Your task to perform on an android device: Clear the shopping cart on bestbuy.com. Add "razer huntsman" to the cart on bestbuy.com, then select checkout. Image 0: 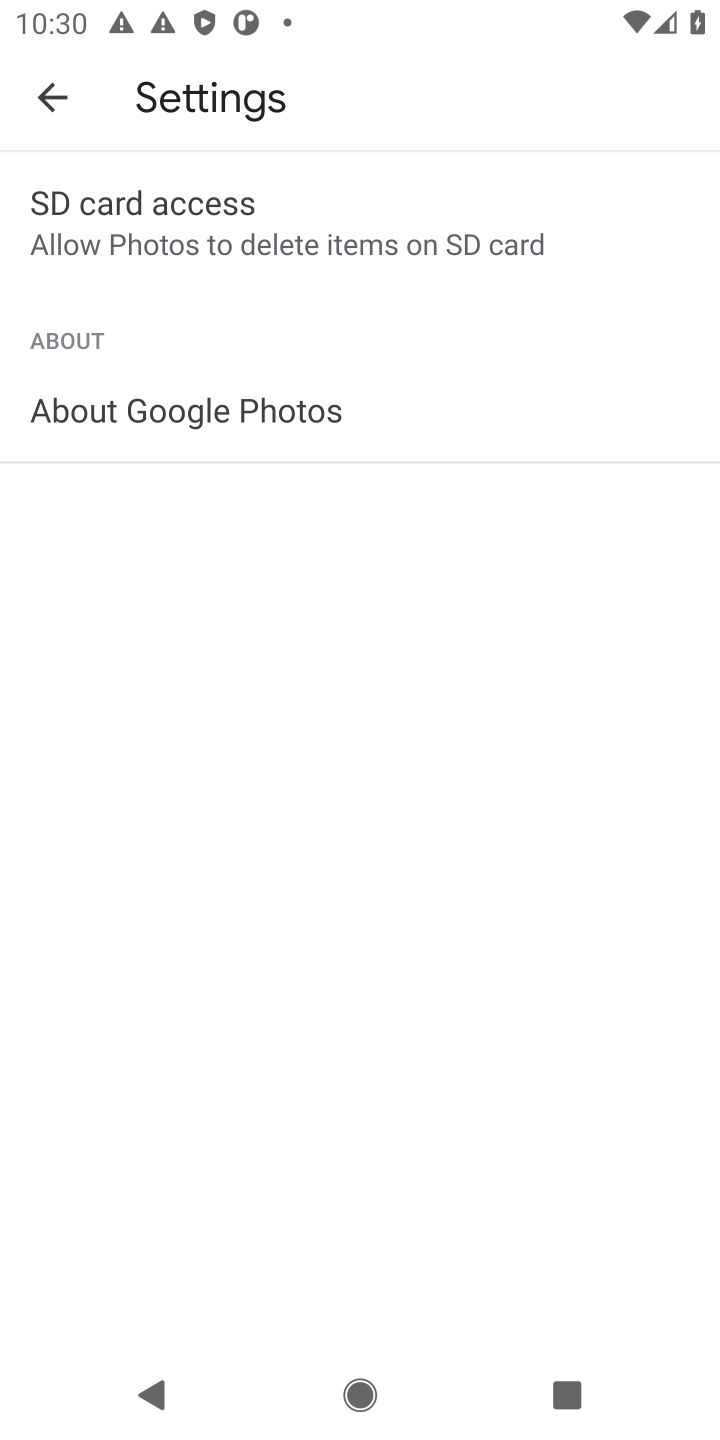
Step 0: press home button
Your task to perform on an android device: Clear the shopping cart on bestbuy.com. Add "razer huntsman" to the cart on bestbuy.com, then select checkout. Image 1: 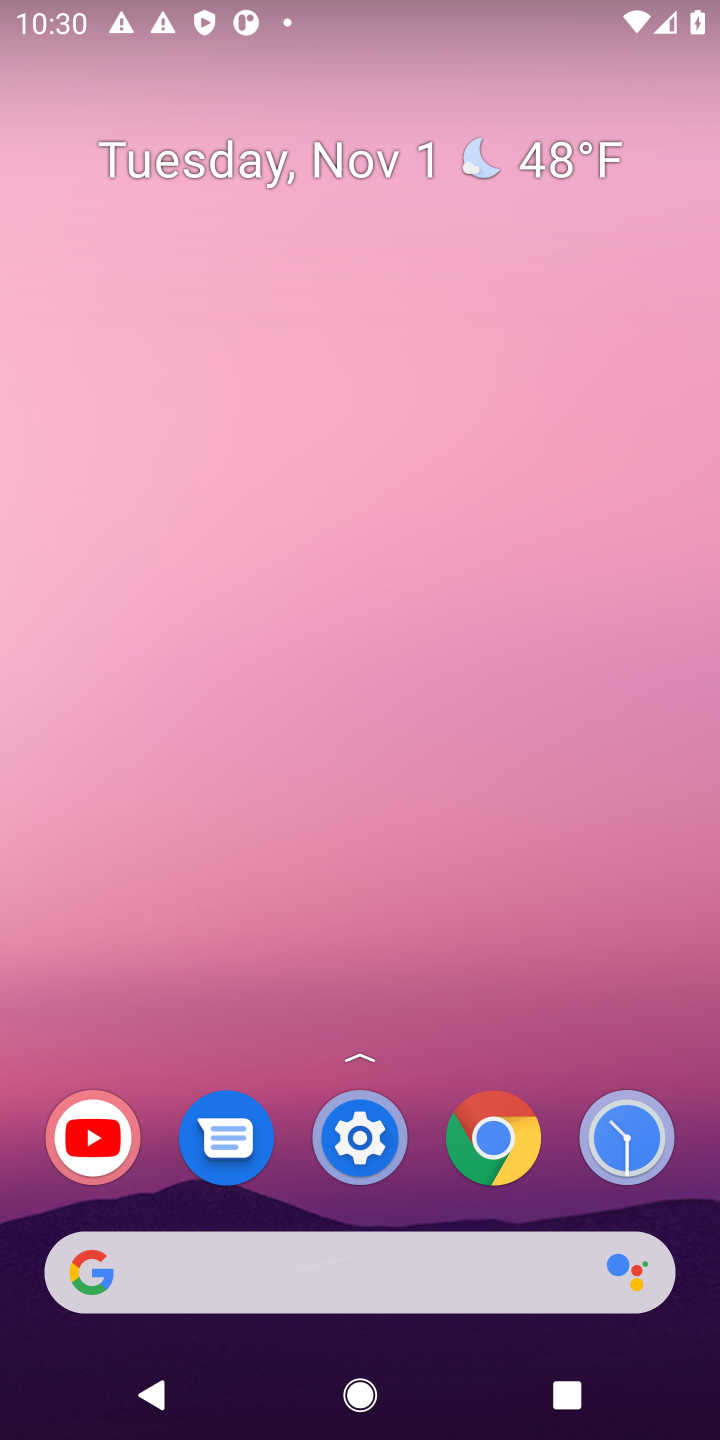
Step 1: click (499, 1144)
Your task to perform on an android device: Clear the shopping cart on bestbuy.com. Add "razer huntsman" to the cart on bestbuy.com, then select checkout. Image 2: 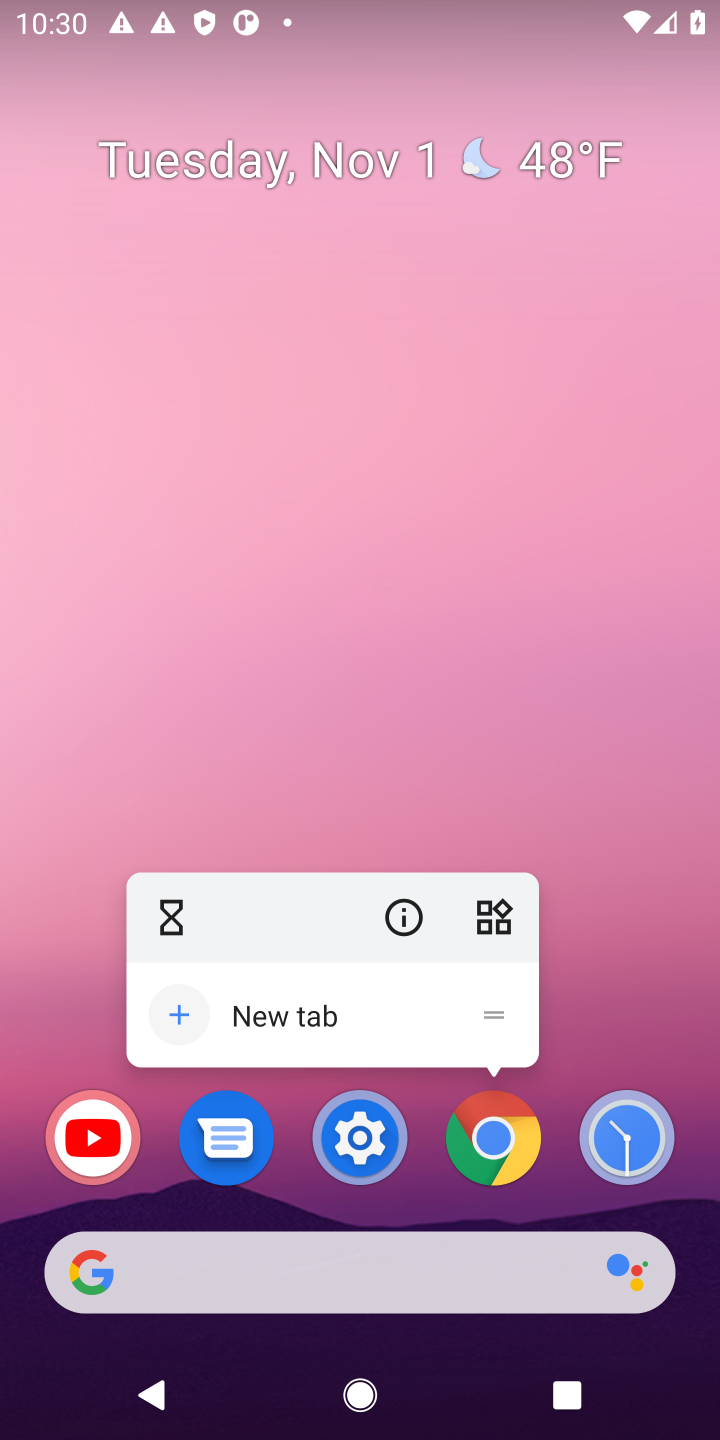
Step 2: click (492, 1154)
Your task to perform on an android device: Clear the shopping cart on bestbuy.com. Add "razer huntsman" to the cart on bestbuy.com, then select checkout. Image 3: 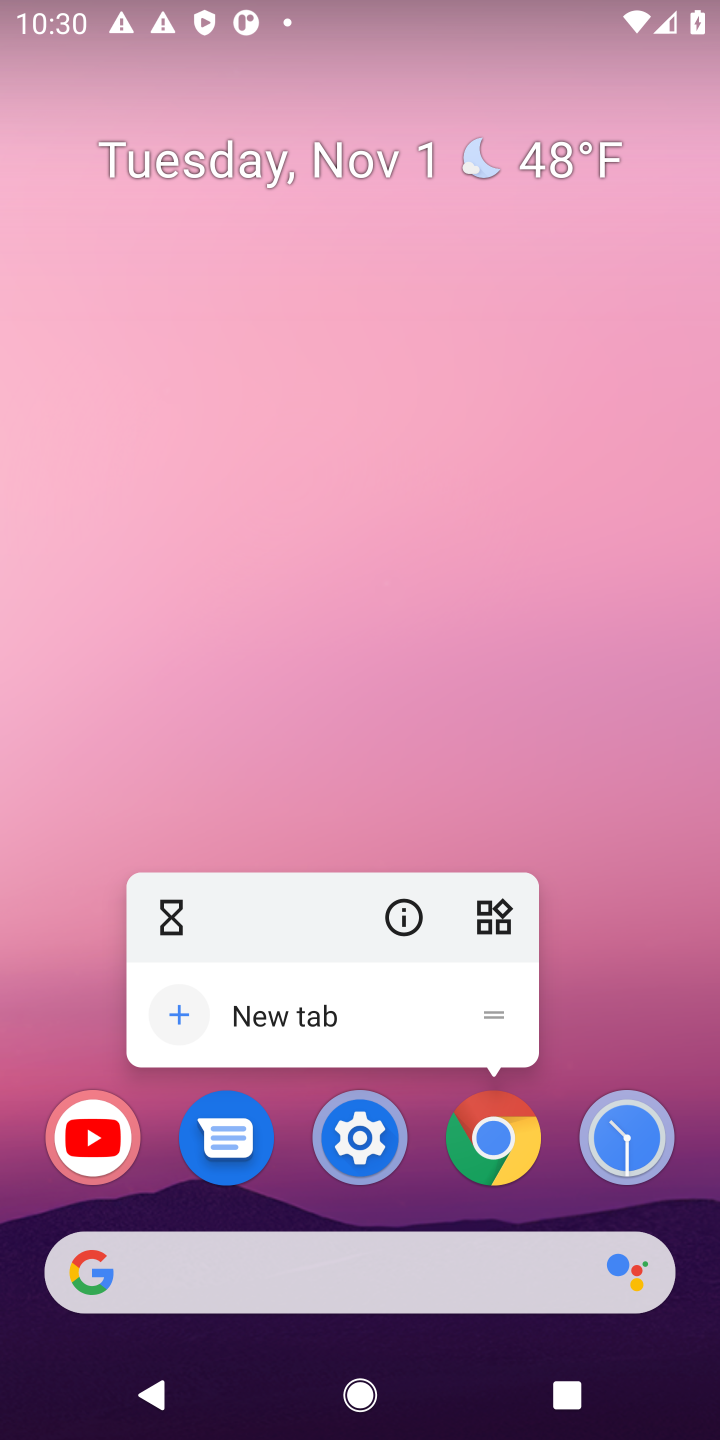
Step 3: click (496, 1179)
Your task to perform on an android device: Clear the shopping cart on bestbuy.com. Add "razer huntsman" to the cart on bestbuy.com, then select checkout. Image 4: 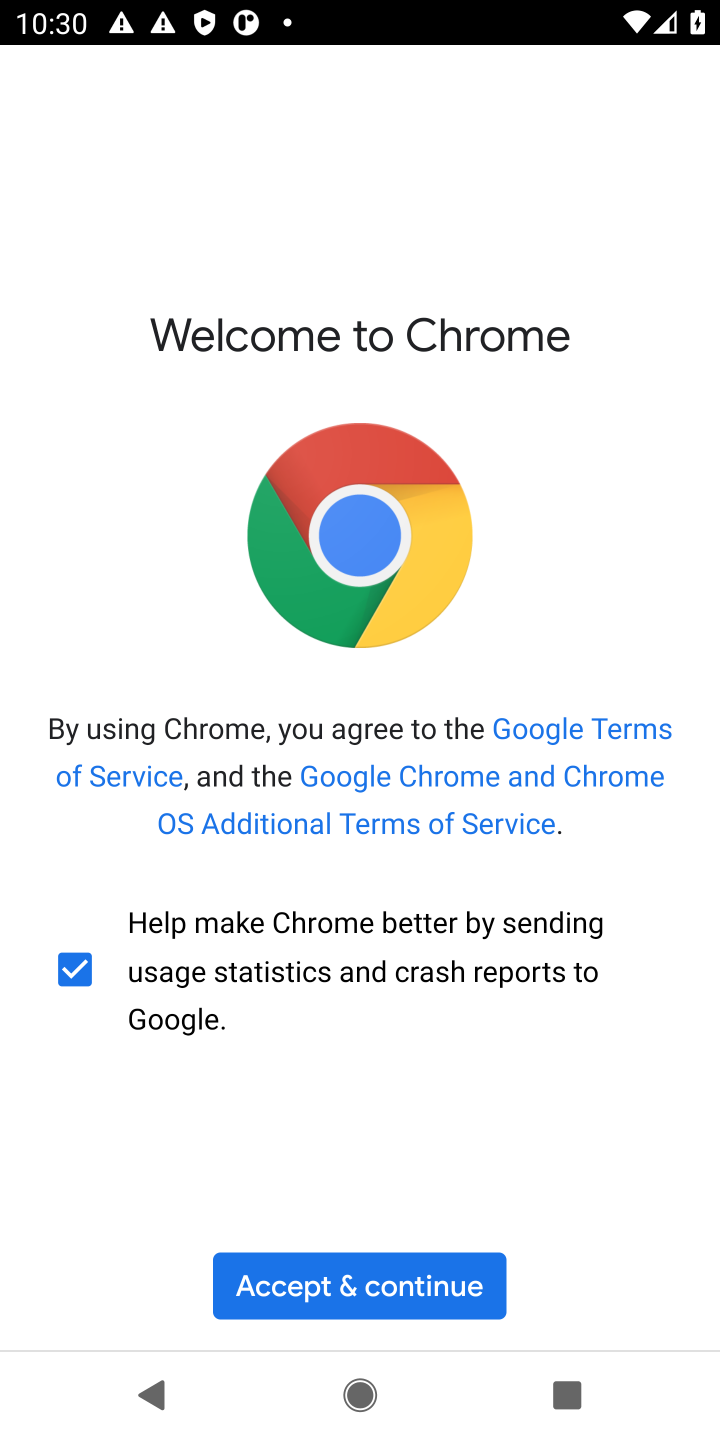
Step 4: click (450, 1274)
Your task to perform on an android device: Clear the shopping cart on bestbuy.com. Add "razer huntsman" to the cart on bestbuy.com, then select checkout. Image 5: 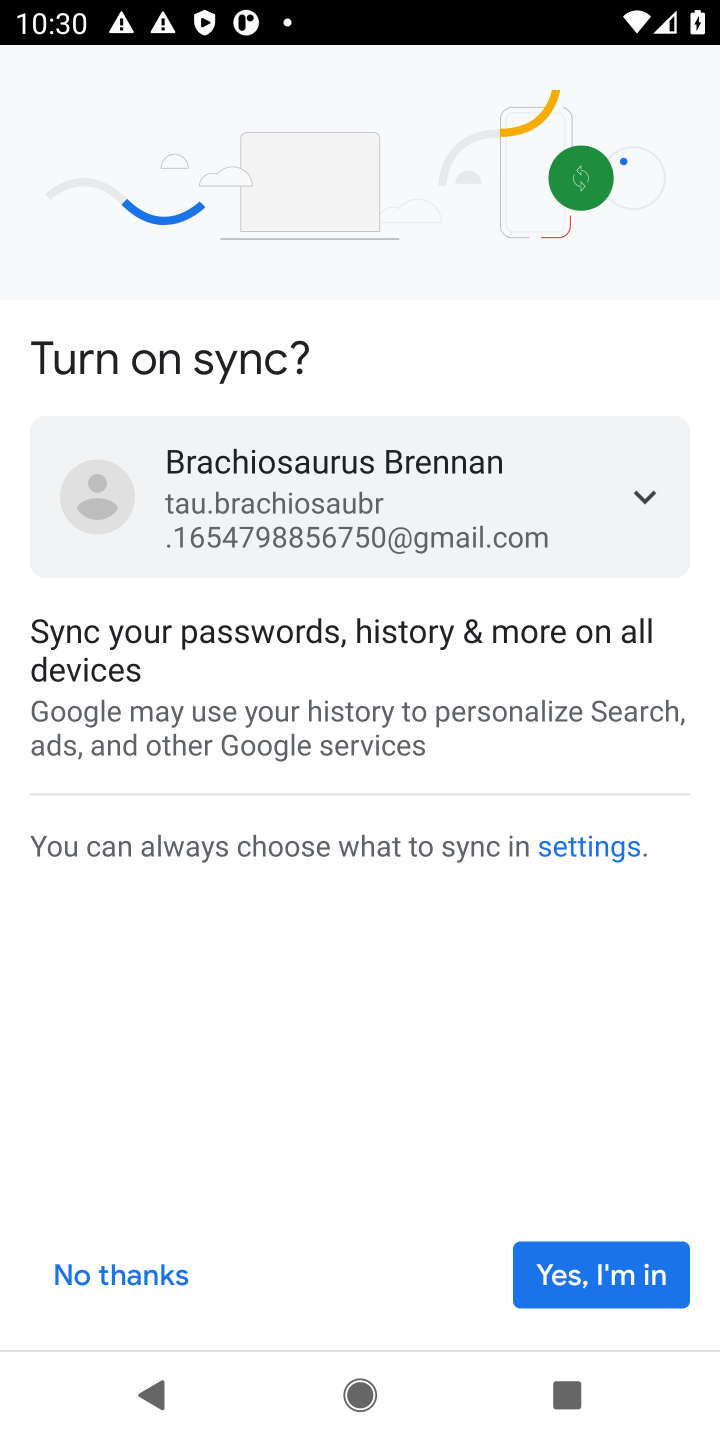
Step 5: click (525, 1256)
Your task to perform on an android device: Clear the shopping cart on bestbuy.com. Add "razer huntsman" to the cart on bestbuy.com, then select checkout. Image 6: 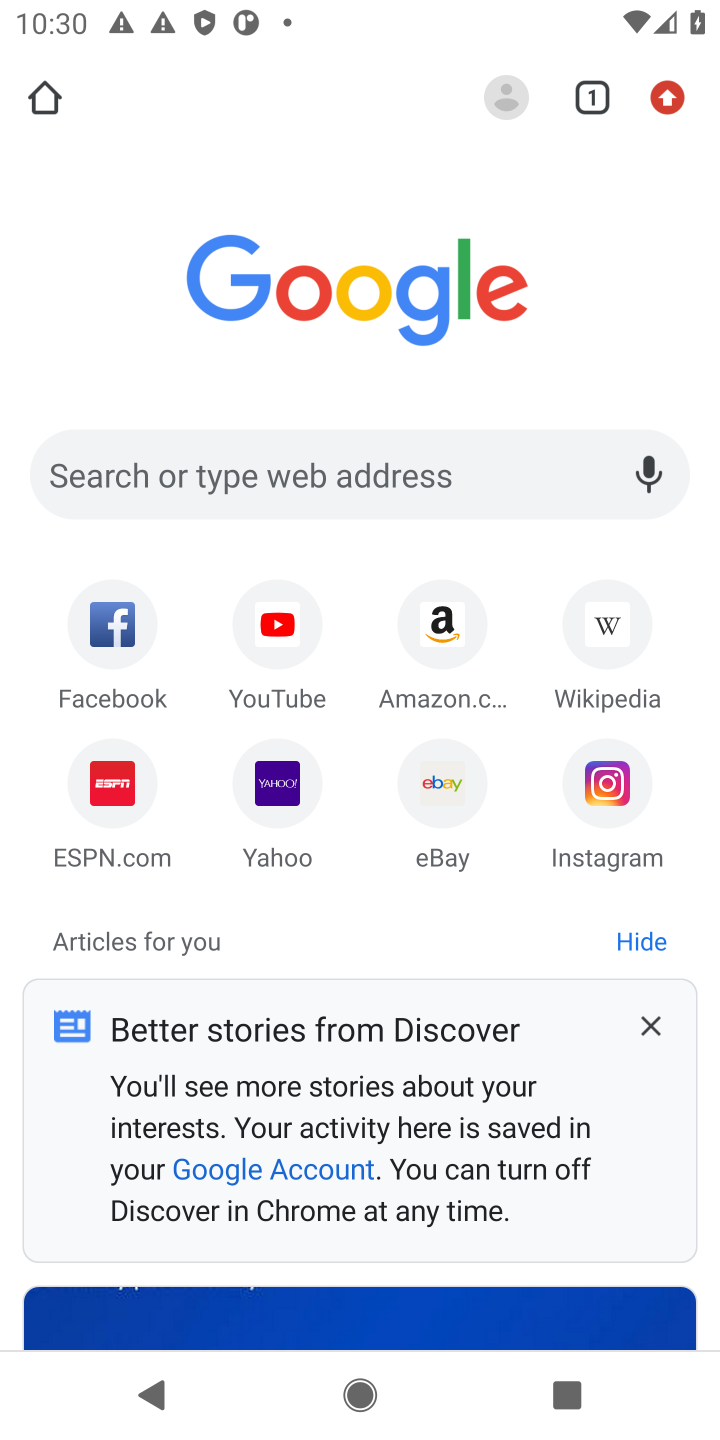
Step 6: click (280, 469)
Your task to perform on an android device: Clear the shopping cart on bestbuy.com. Add "razer huntsman" to the cart on bestbuy.com, then select checkout. Image 7: 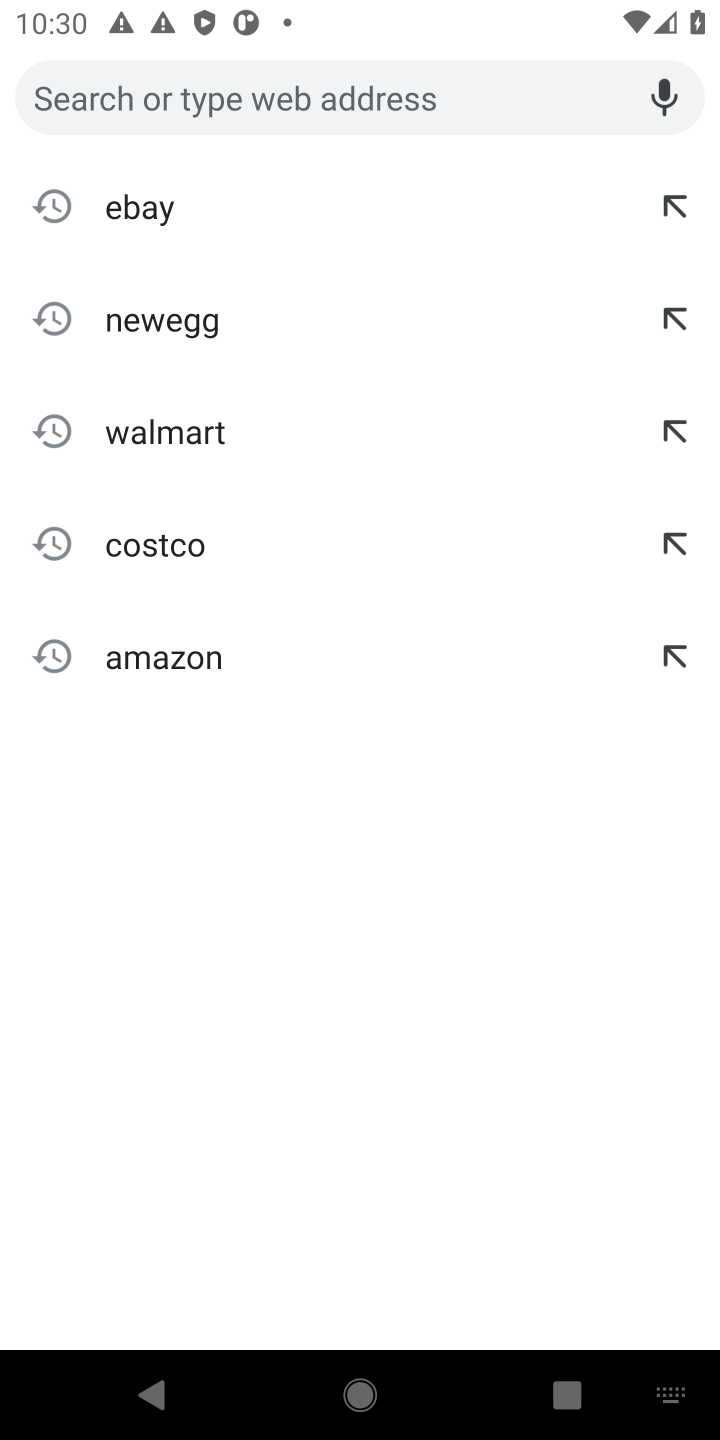
Step 7: type " bestbuy.com"
Your task to perform on an android device: Clear the shopping cart on bestbuy.com. Add "razer huntsman" to the cart on bestbuy.com, then select checkout. Image 8: 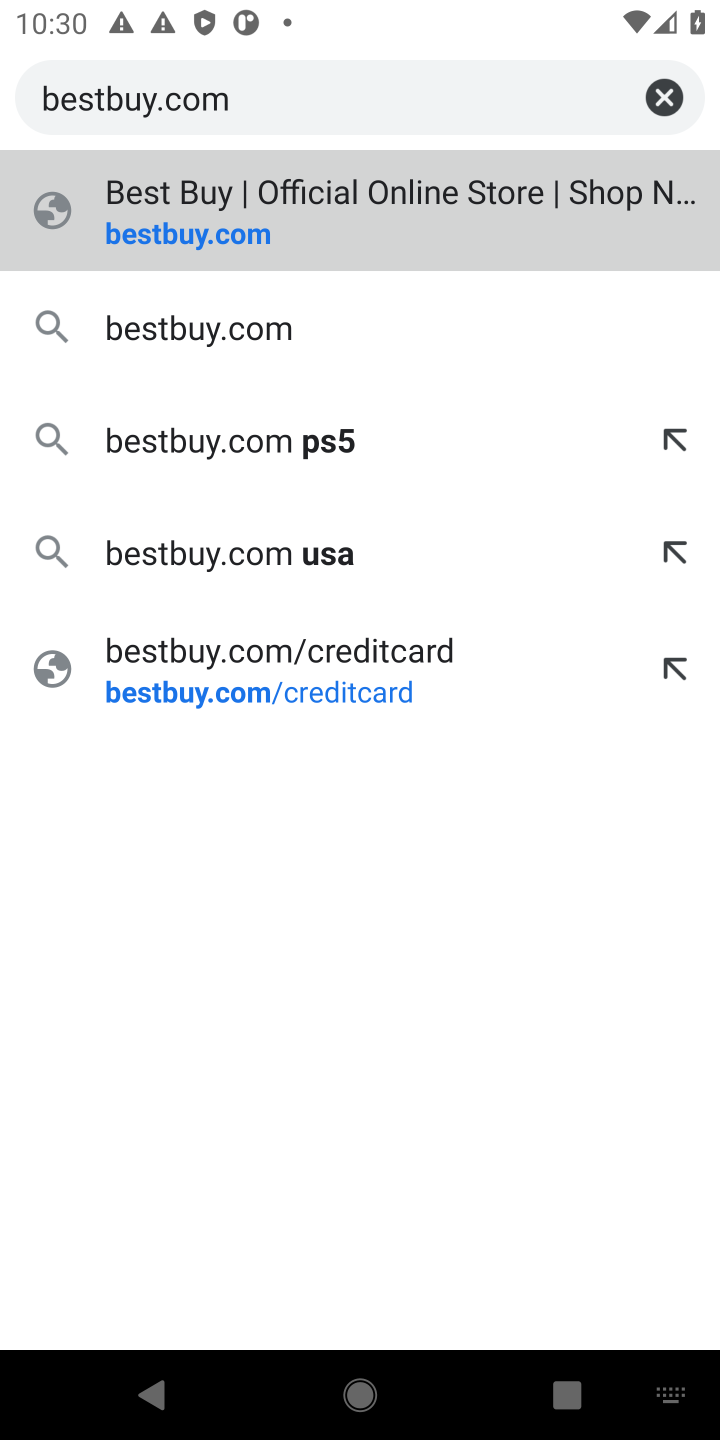
Step 8: type ""
Your task to perform on an android device: Clear the shopping cart on bestbuy.com. Add "razer huntsman" to the cart on bestbuy.com, then select checkout. Image 9: 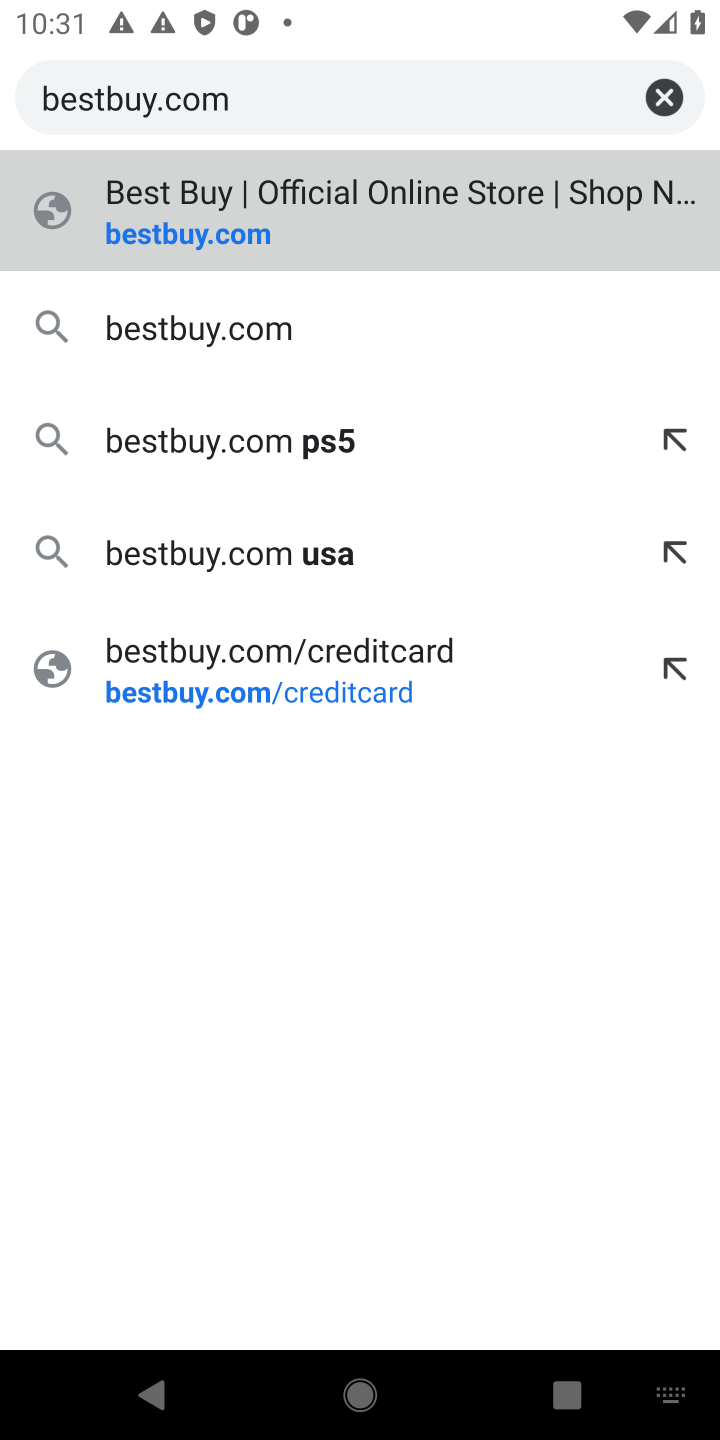
Step 9: click (269, 204)
Your task to perform on an android device: Clear the shopping cart on bestbuy.com. Add "razer huntsman" to the cart on bestbuy.com, then select checkout. Image 10: 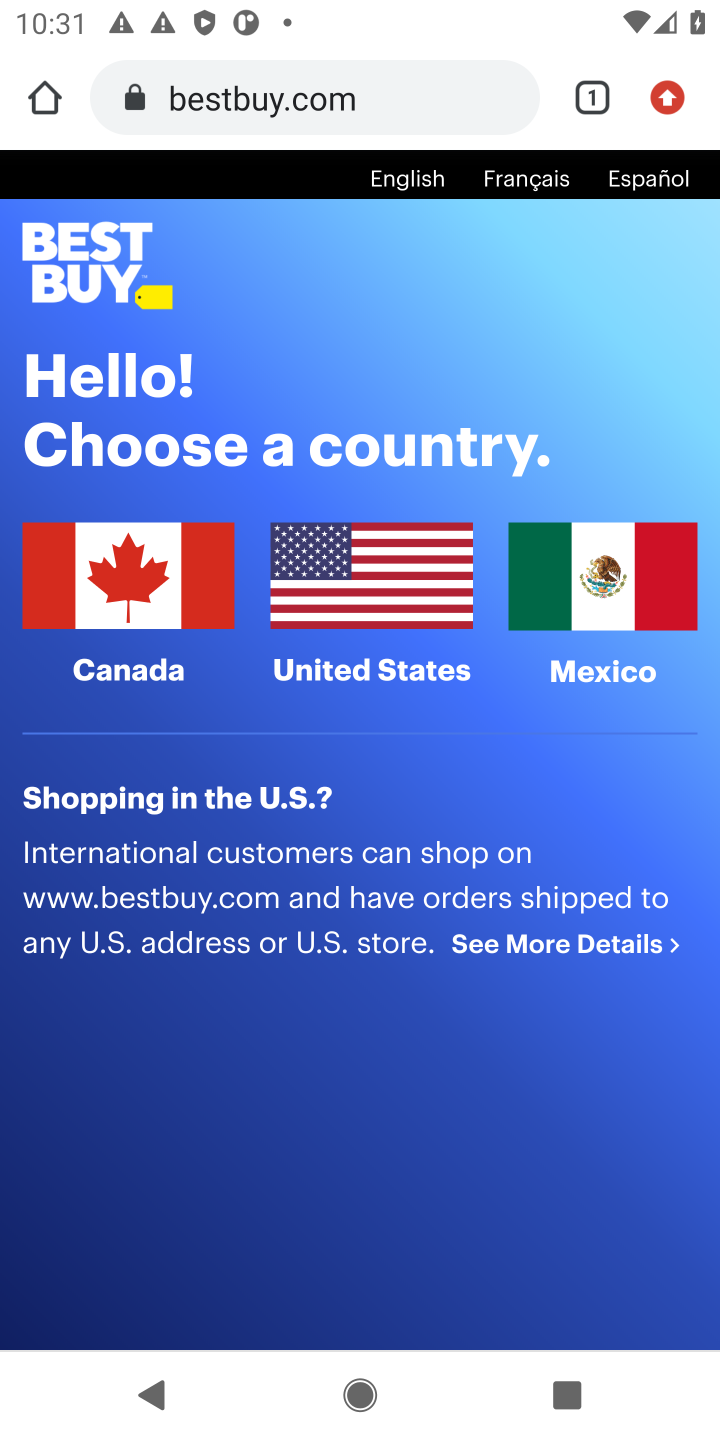
Step 10: click (480, 614)
Your task to perform on an android device: Clear the shopping cart on bestbuy.com. Add "razer huntsman" to the cart on bestbuy.com, then select checkout. Image 11: 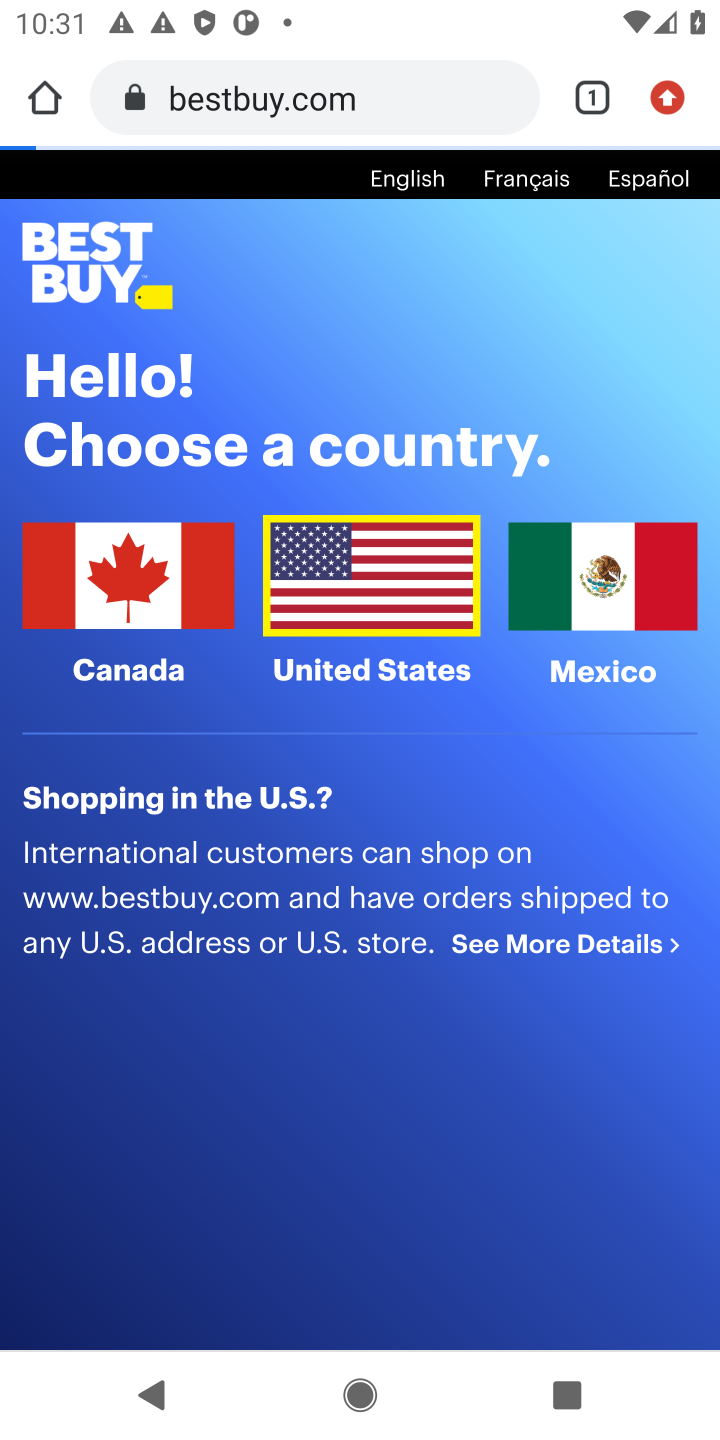
Step 11: click (453, 614)
Your task to perform on an android device: Clear the shopping cart on bestbuy.com. Add "razer huntsman" to the cart on bestbuy.com, then select checkout. Image 12: 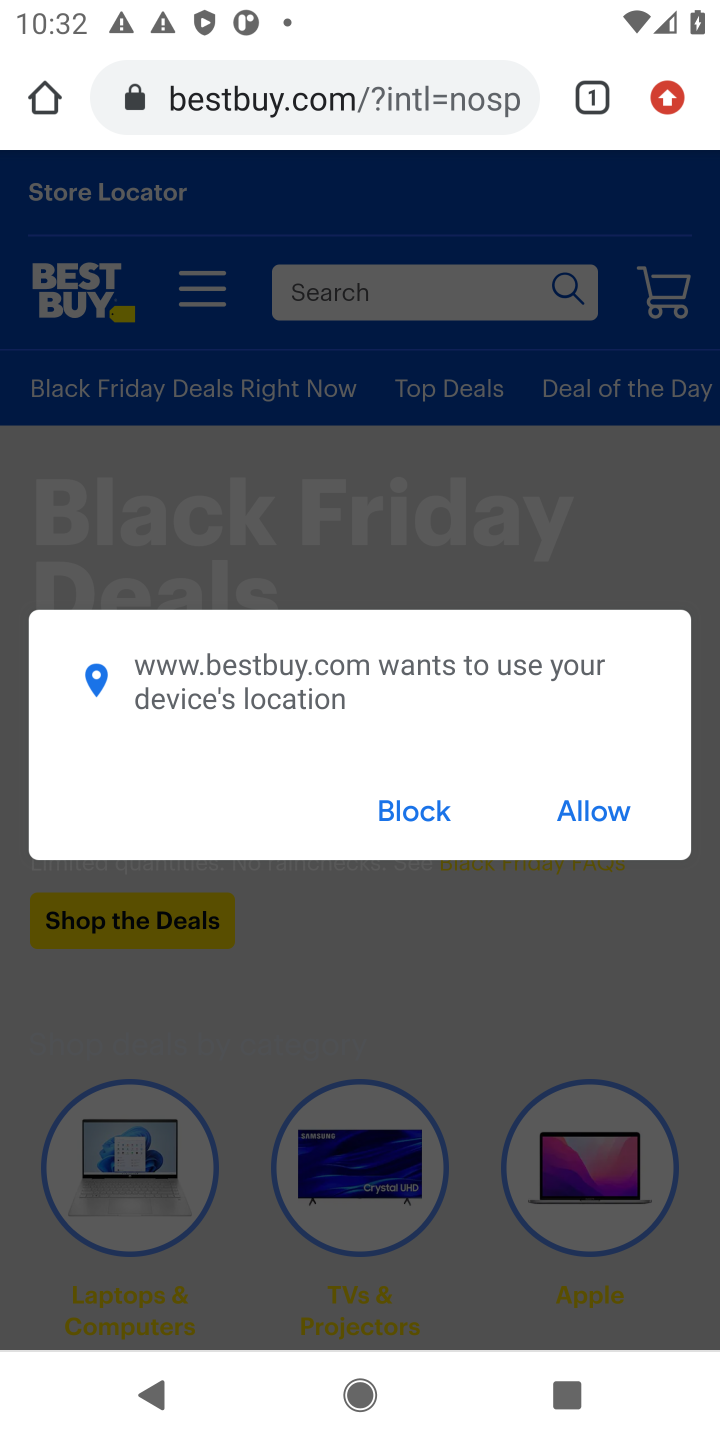
Step 12: click (573, 802)
Your task to perform on an android device: Clear the shopping cart on bestbuy.com. Add "razer huntsman" to the cart on bestbuy.com, then select checkout. Image 13: 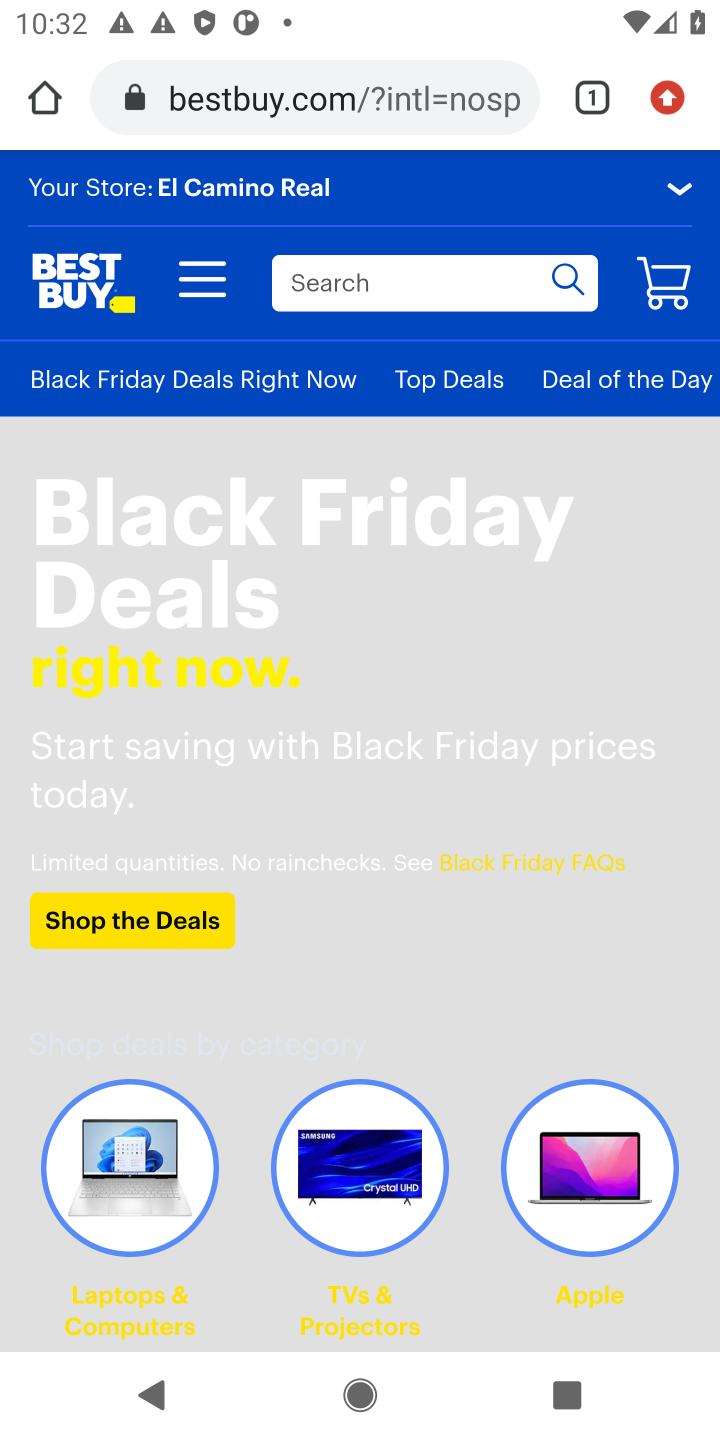
Step 13: click (320, 260)
Your task to perform on an android device: Clear the shopping cart on bestbuy.com. Add "razer huntsman" to the cart on bestbuy.com, then select checkout. Image 14: 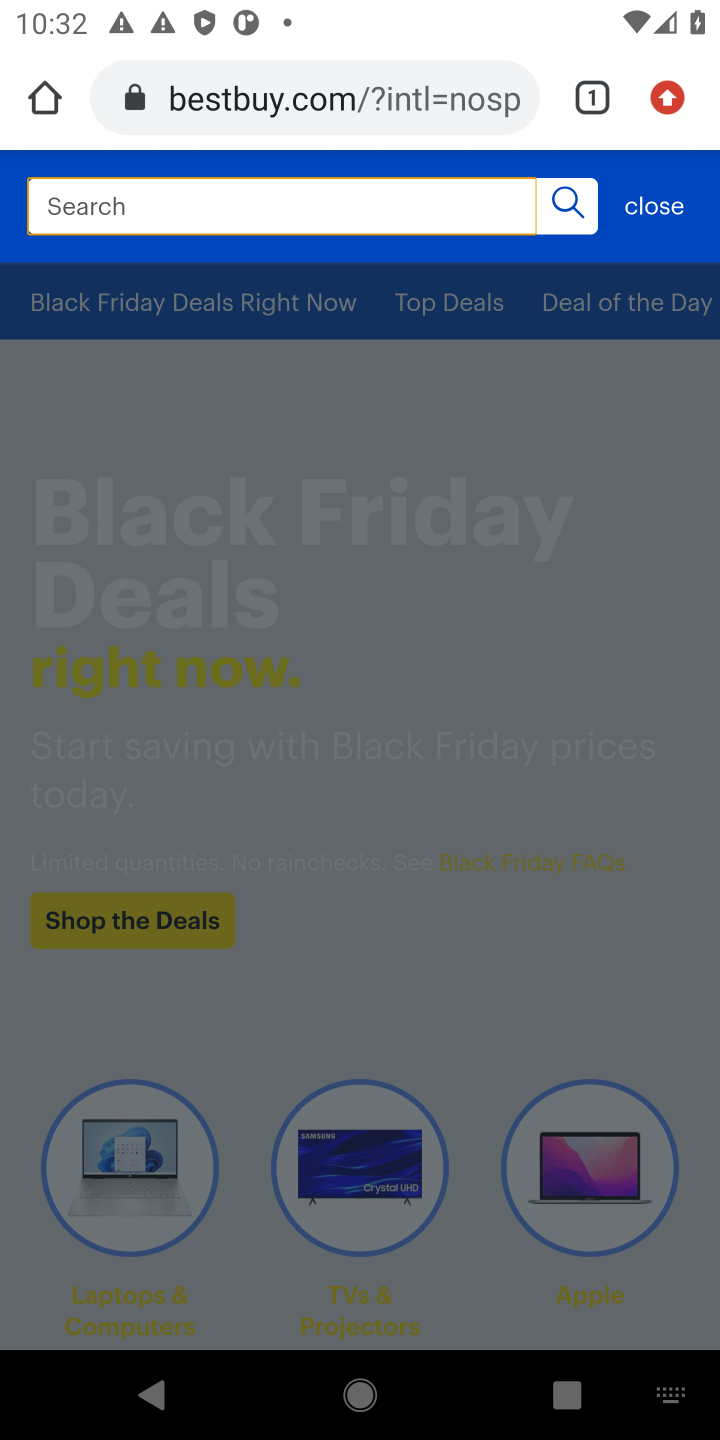
Step 14: type "razer huntsman"
Your task to perform on an android device: Clear the shopping cart on bestbuy.com. Add "razer huntsman" to the cart on bestbuy.com, then select checkout. Image 15: 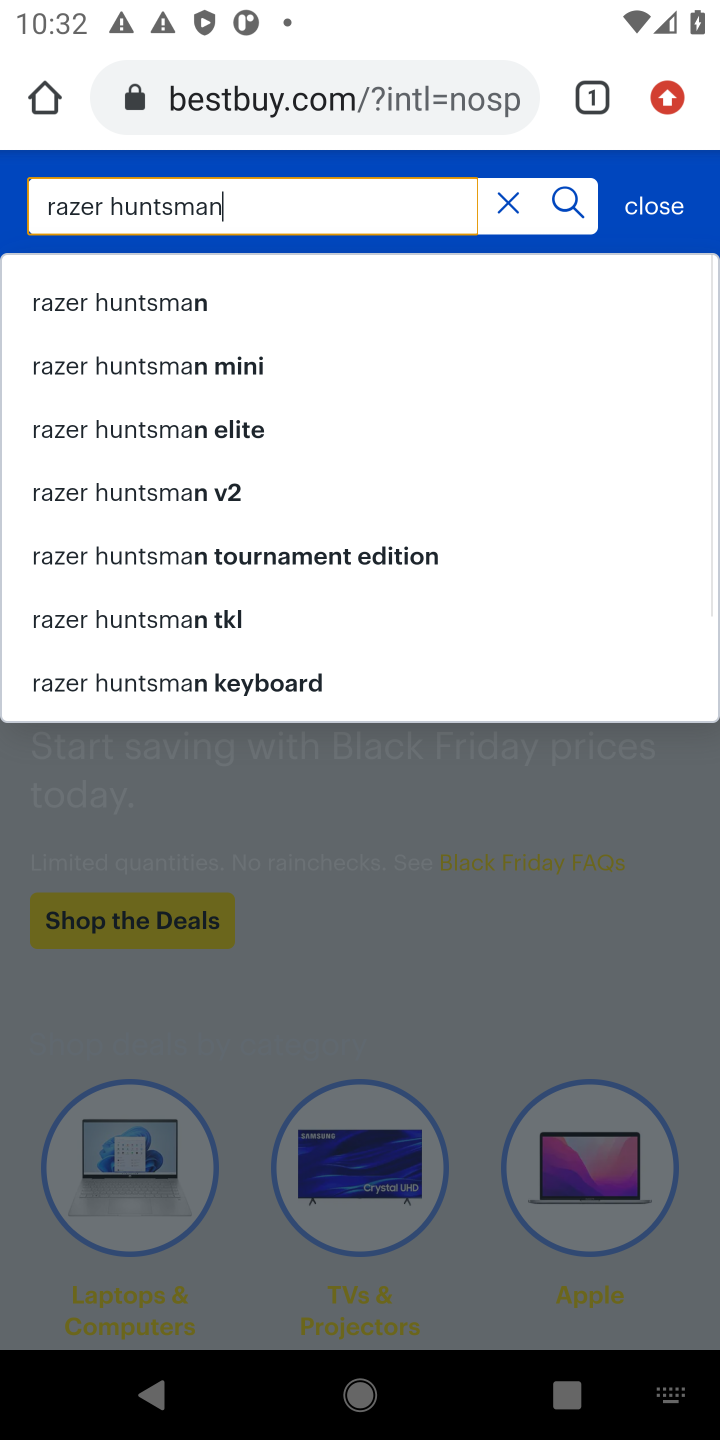
Step 15: type ""
Your task to perform on an android device: Clear the shopping cart on bestbuy.com. Add "razer huntsman" to the cart on bestbuy.com, then select checkout. Image 16: 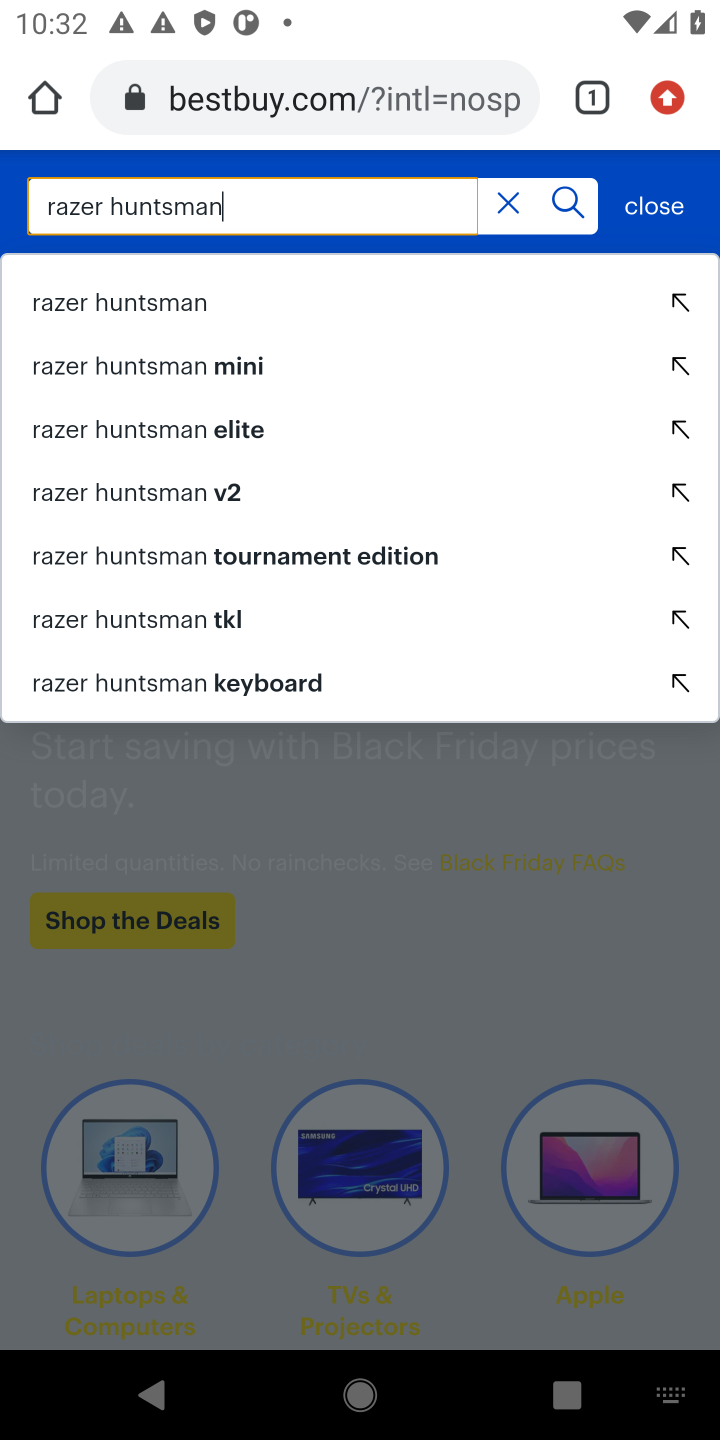
Step 16: click (169, 304)
Your task to perform on an android device: Clear the shopping cart on bestbuy.com. Add "razer huntsman" to the cart on bestbuy.com, then select checkout. Image 17: 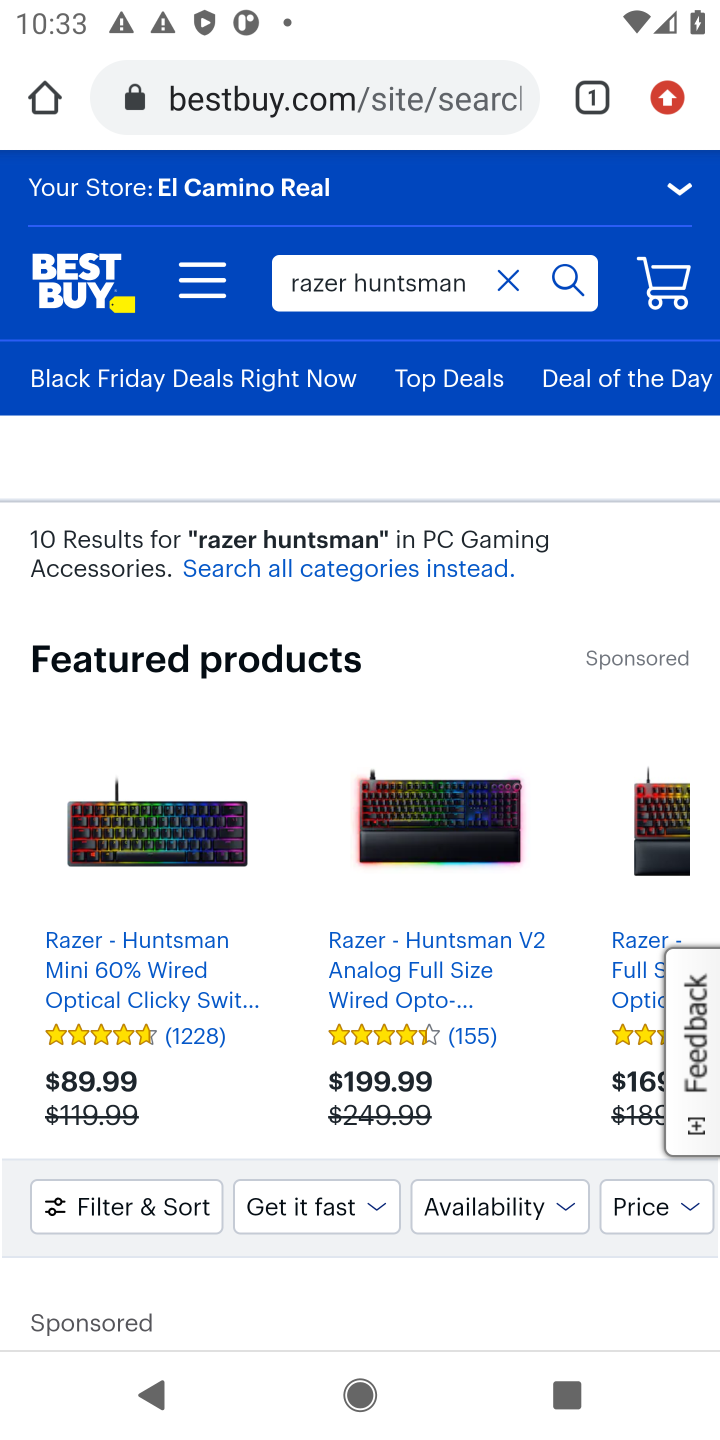
Step 17: click (184, 874)
Your task to perform on an android device: Clear the shopping cart on bestbuy.com. Add "razer huntsman" to the cart on bestbuy.com, then select checkout. Image 18: 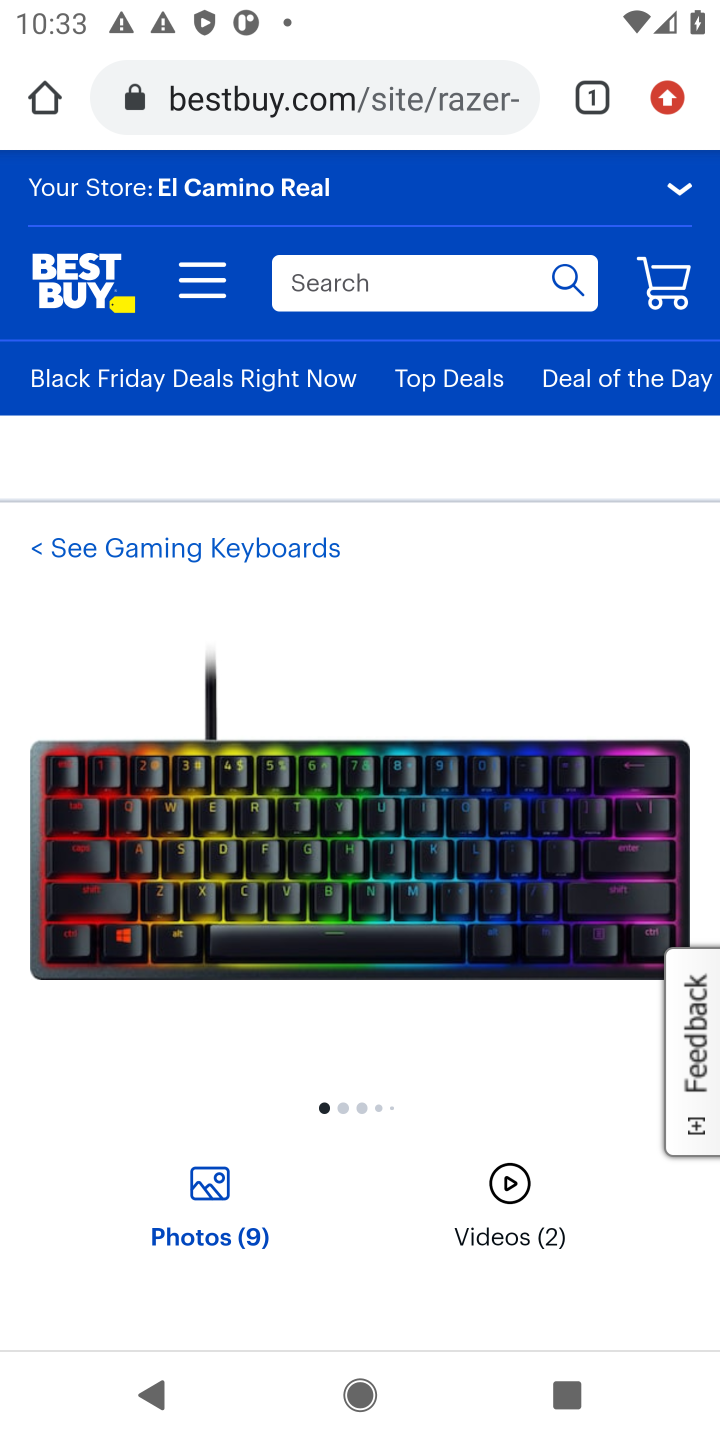
Step 18: drag from (233, 1073) to (349, 589)
Your task to perform on an android device: Clear the shopping cart on bestbuy.com. Add "razer huntsman" to the cart on bestbuy.com, then select checkout. Image 19: 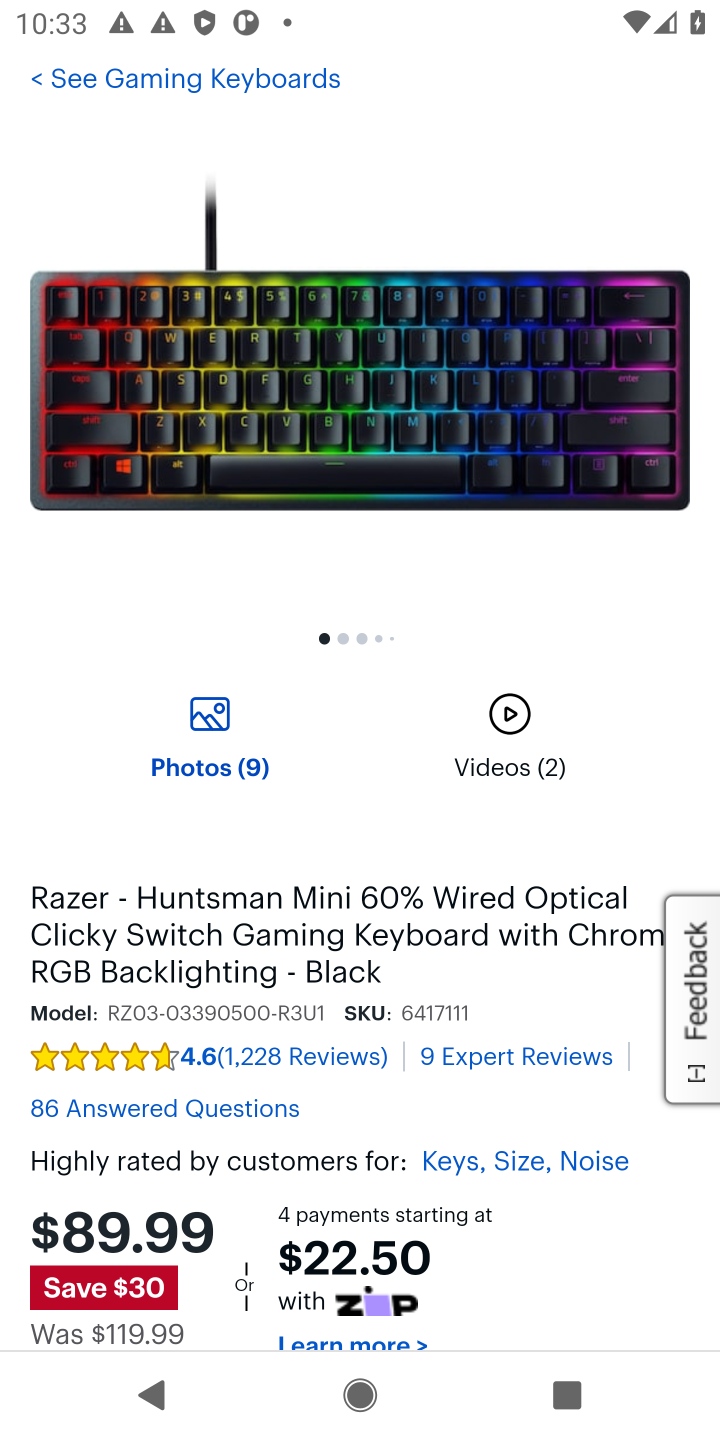
Step 19: drag from (325, 561) to (351, 437)
Your task to perform on an android device: Clear the shopping cart on bestbuy.com. Add "razer huntsman" to the cart on bestbuy.com, then select checkout. Image 20: 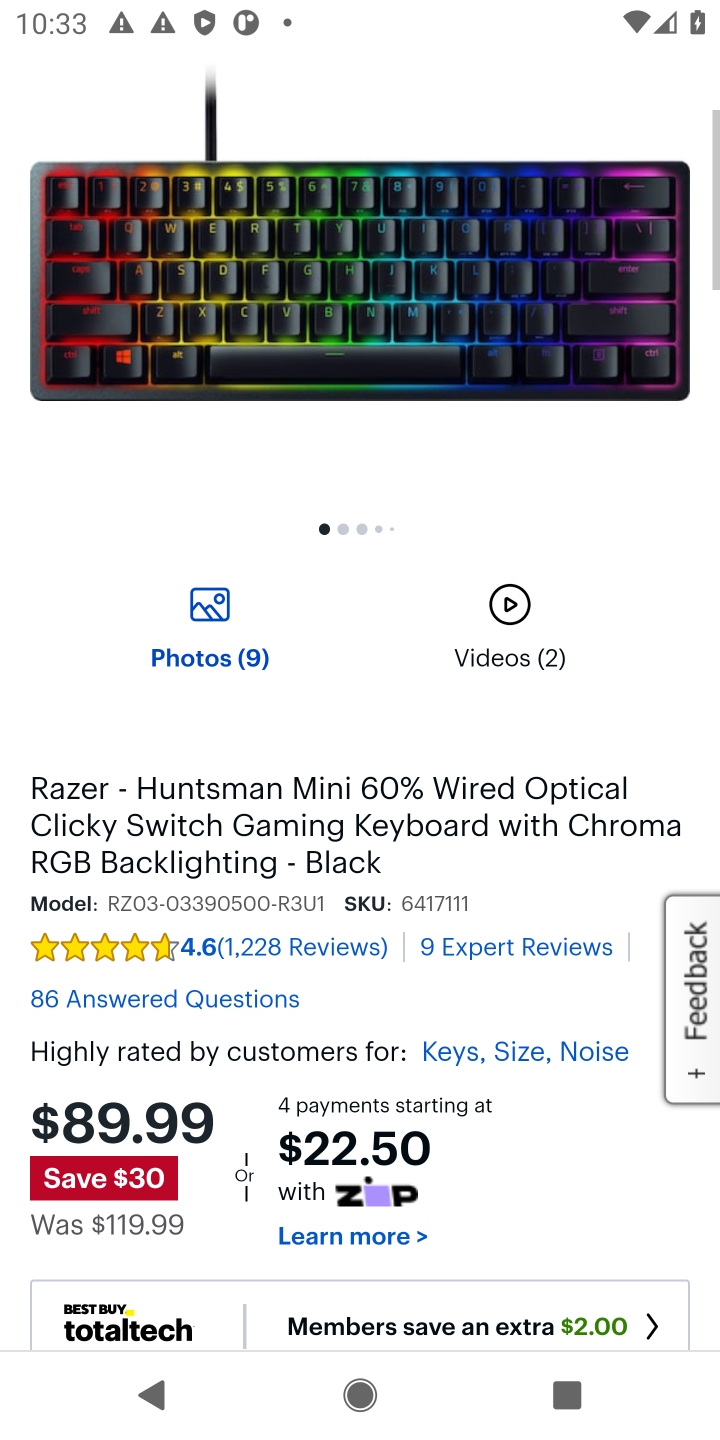
Step 20: drag from (299, 758) to (327, 639)
Your task to perform on an android device: Clear the shopping cart on bestbuy.com. Add "razer huntsman" to the cart on bestbuy.com, then select checkout. Image 21: 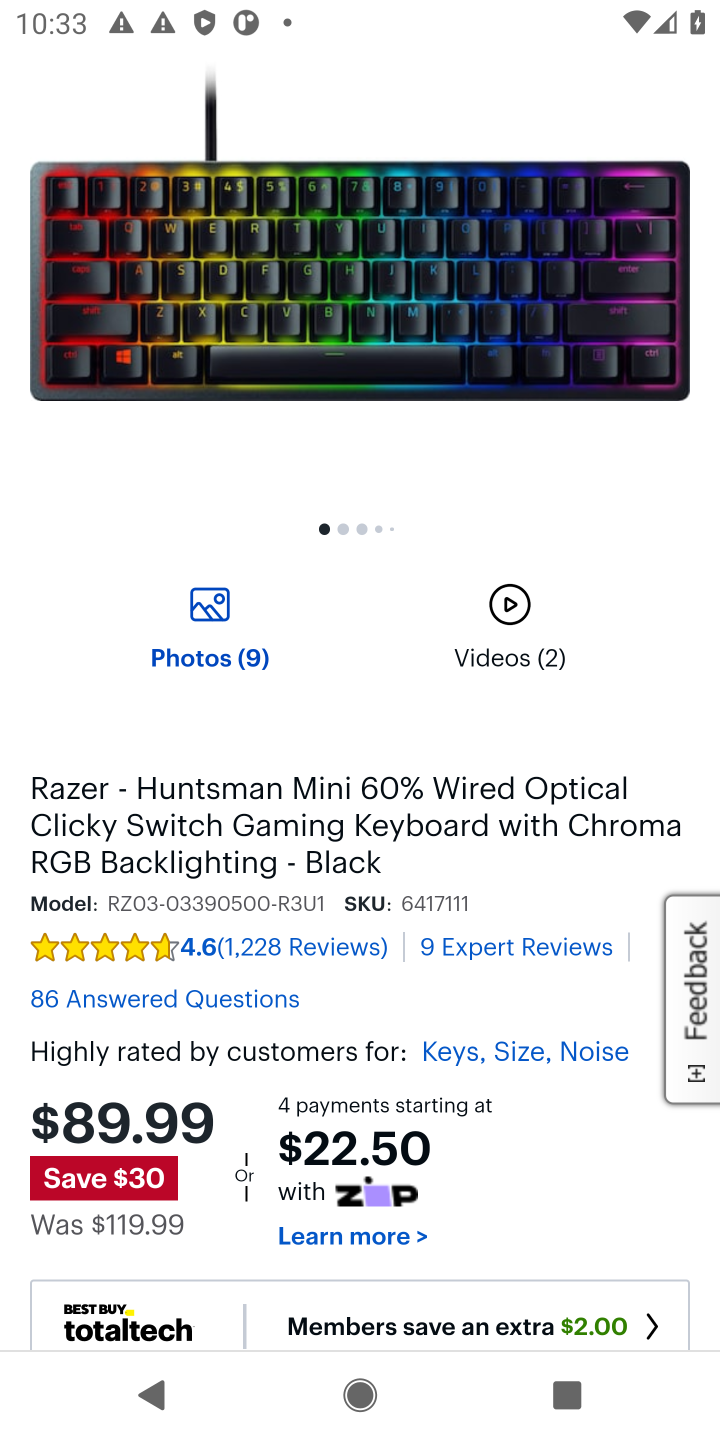
Step 21: drag from (425, 751) to (452, 651)
Your task to perform on an android device: Clear the shopping cart on bestbuy.com. Add "razer huntsman" to the cart on bestbuy.com, then select checkout. Image 22: 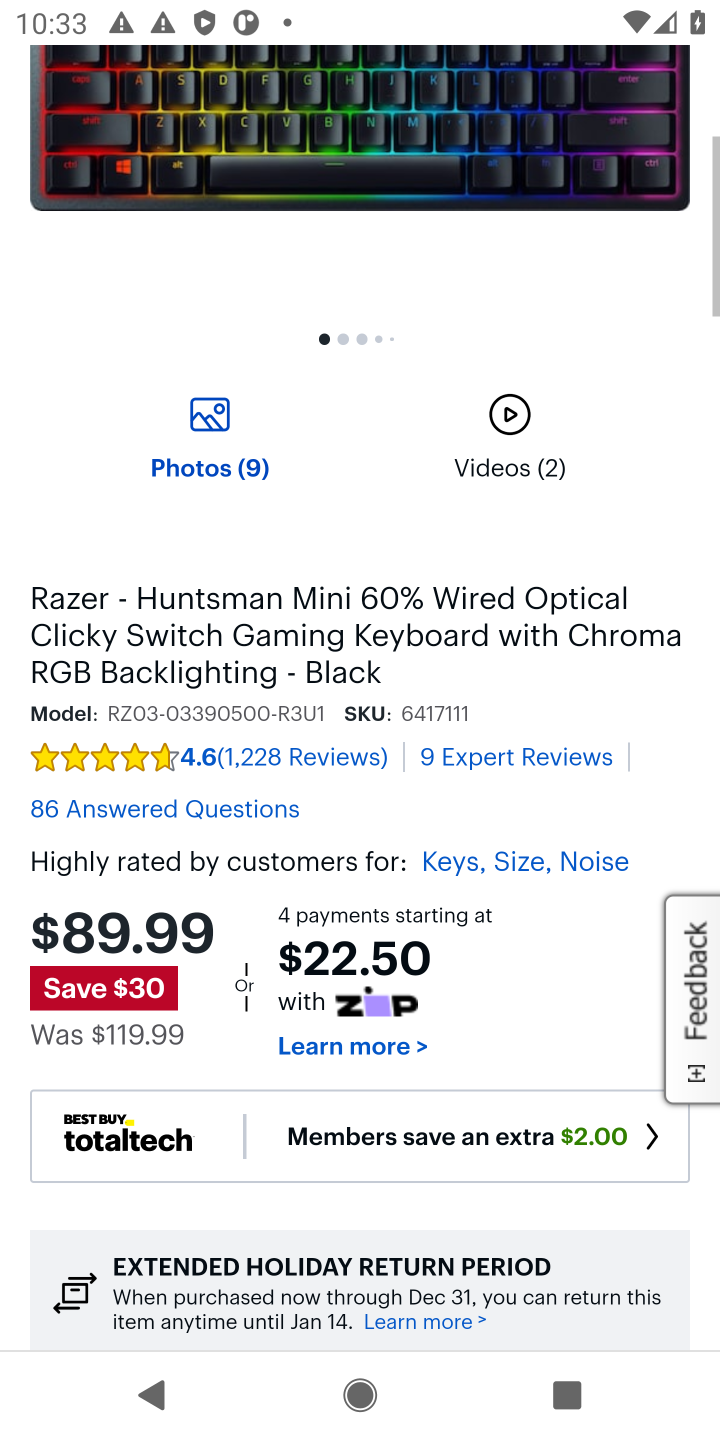
Step 22: drag from (430, 766) to (342, 436)
Your task to perform on an android device: Clear the shopping cart on bestbuy.com. Add "razer huntsman" to the cart on bestbuy.com, then select checkout. Image 23: 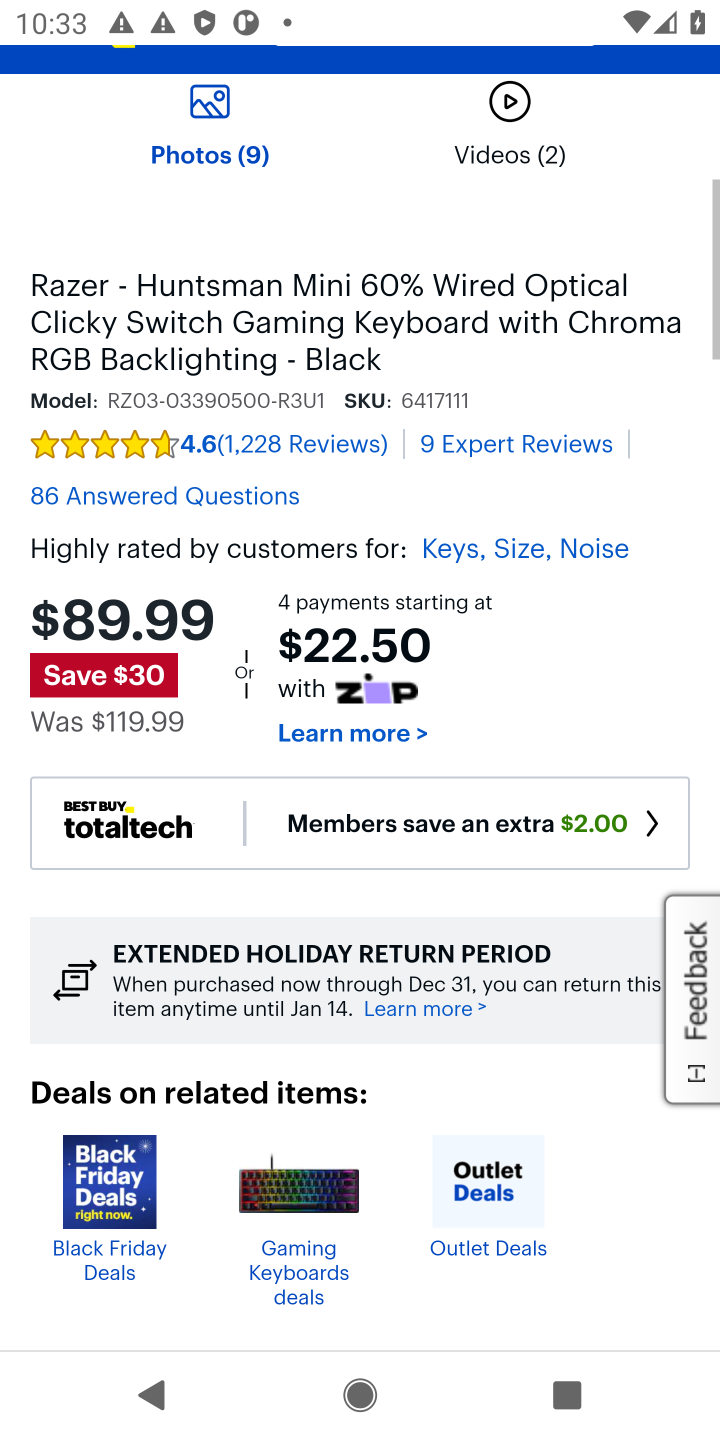
Step 23: drag from (383, 604) to (425, 495)
Your task to perform on an android device: Clear the shopping cart on bestbuy.com. Add "razer huntsman" to the cart on bestbuy.com, then select checkout. Image 24: 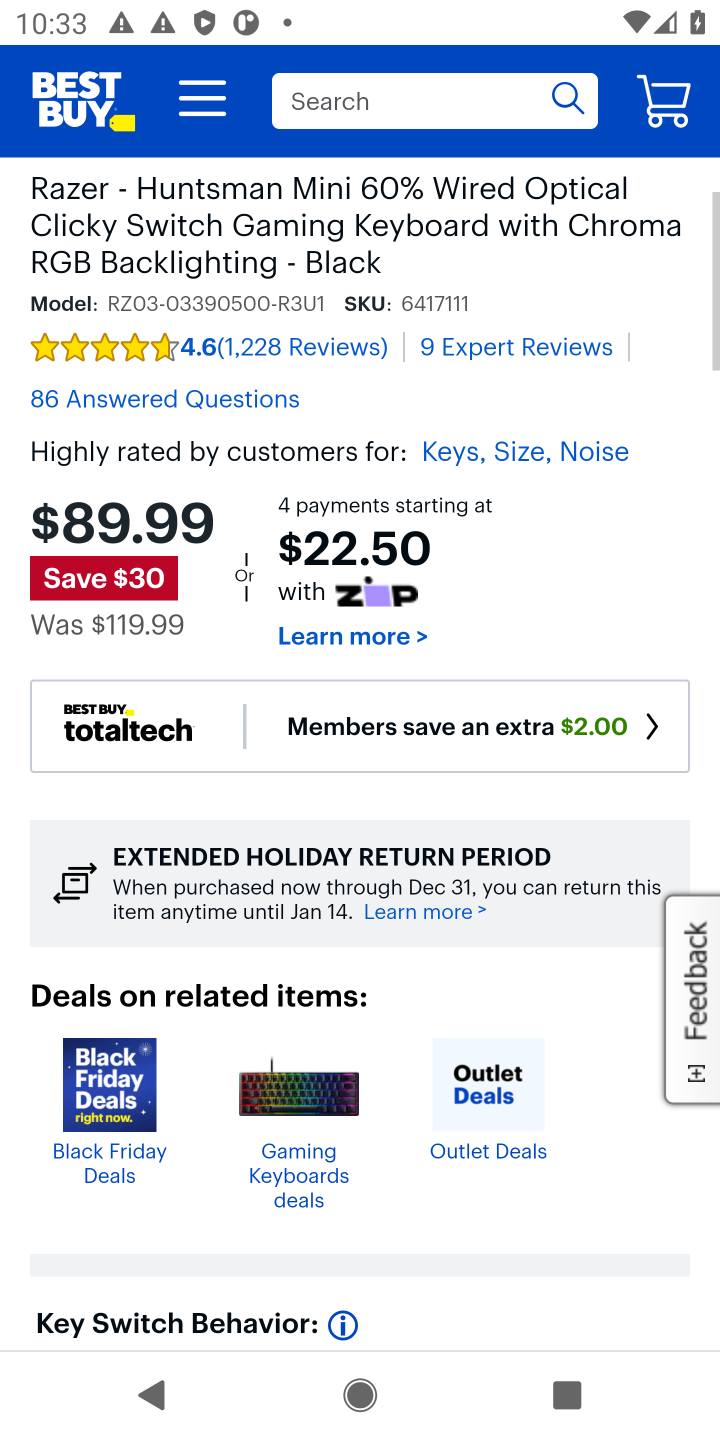
Step 24: drag from (385, 750) to (388, 323)
Your task to perform on an android device: Clear the shopping cart on bestbuy.com. Add "razer huntsman" to the cart on bestbuy.com, then select checkout. Image 25: 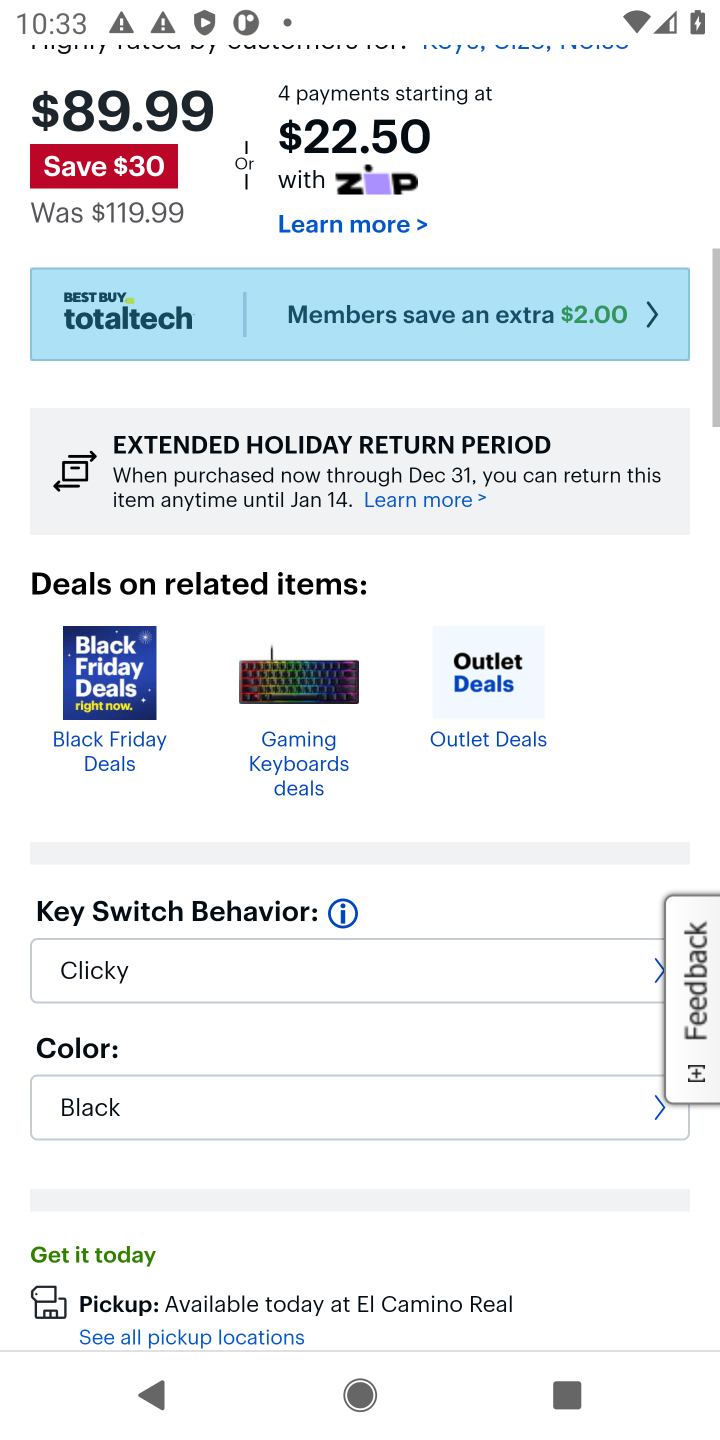
Step 25: drag from (366, 1106) to (420, 604)
Your task to perform on an android device: Clear the shopping cart on bestbuy.com. Add "razer huntsman" to the cart on bestbuy.com, then select checkout. Image 26: 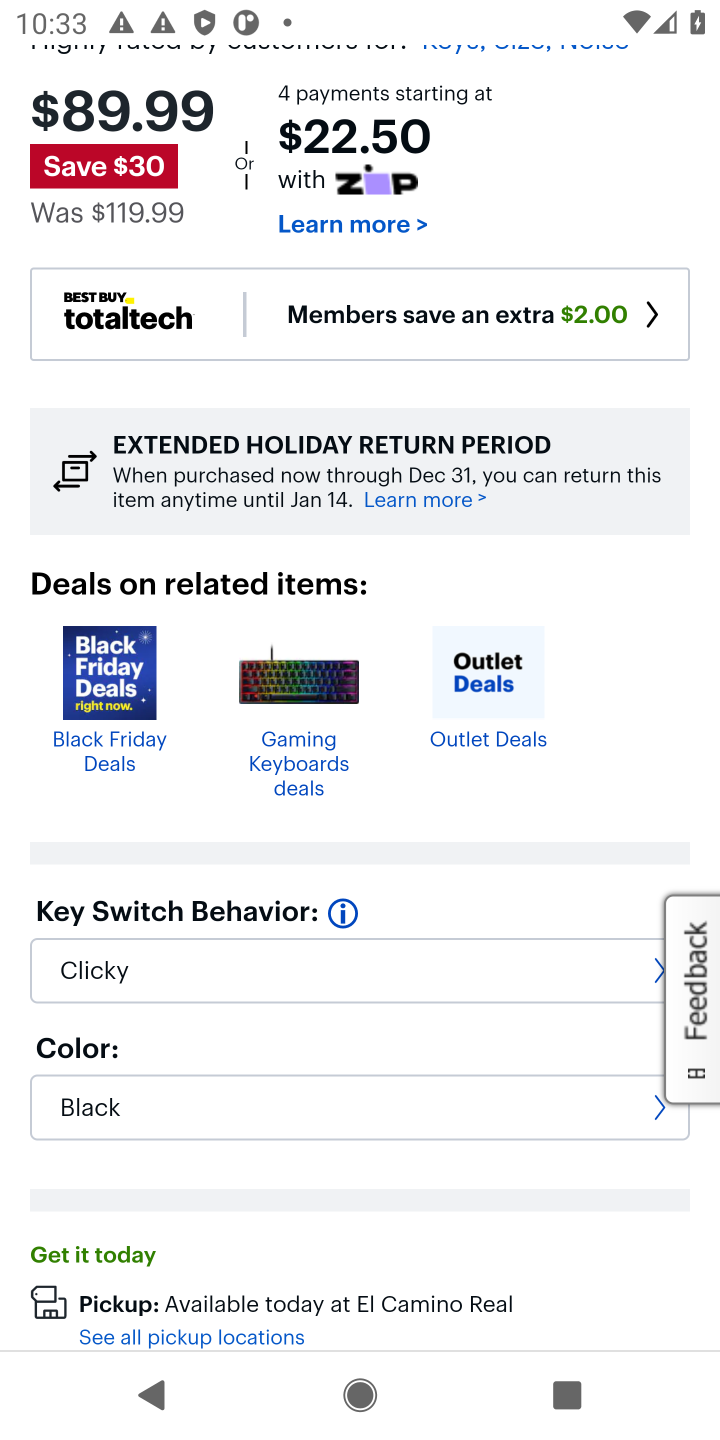
Step 26: drag from (408, 763) to (441, 424)
Your task to perform on an android device: Clear the shopping cart on bestbuy.com. Add "razer huntsman" to the cart on bestbuy.com, then select checkout. Image 27: 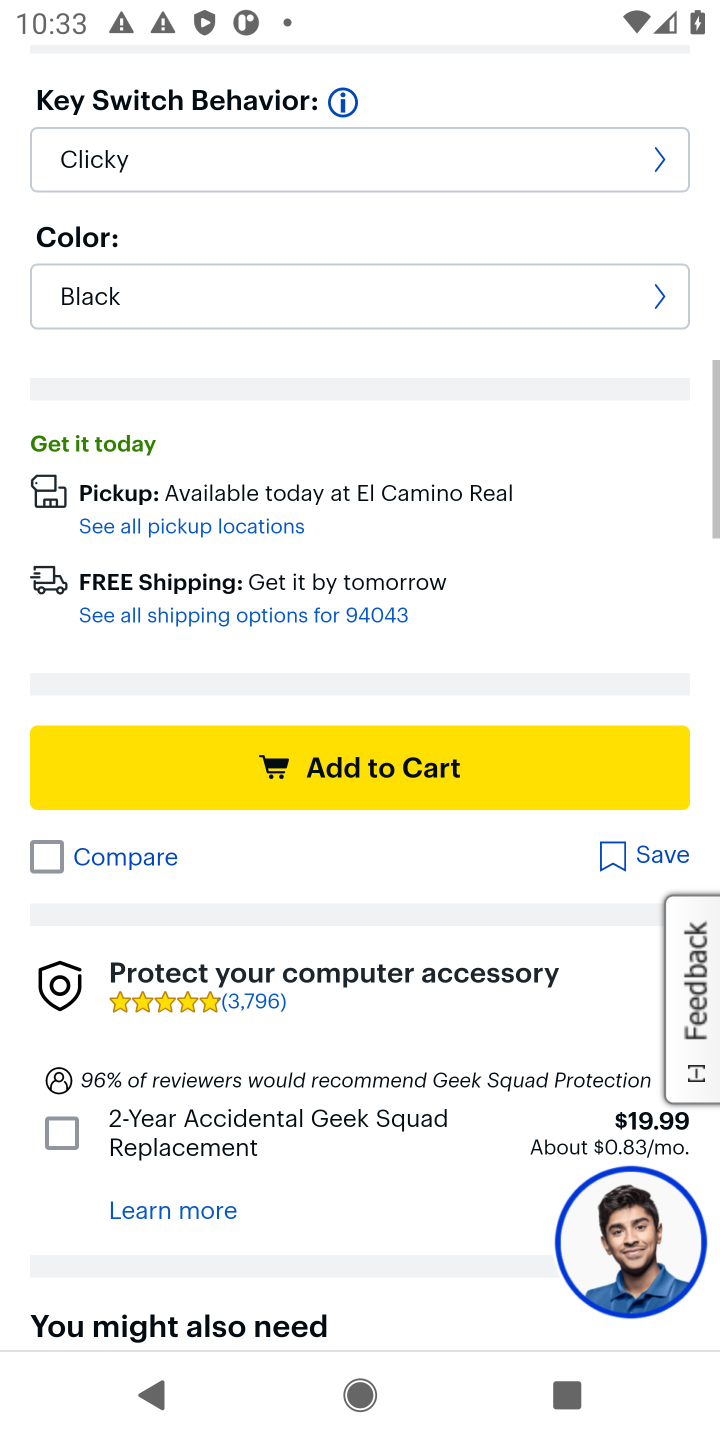
Step 27: click (424, 1079)
Your task to perform on an android device: Clear the shopping cart on bestbuy.com. Add "razer huntsman" to the cart on bestbuy.com, then select checkout. Image 28: 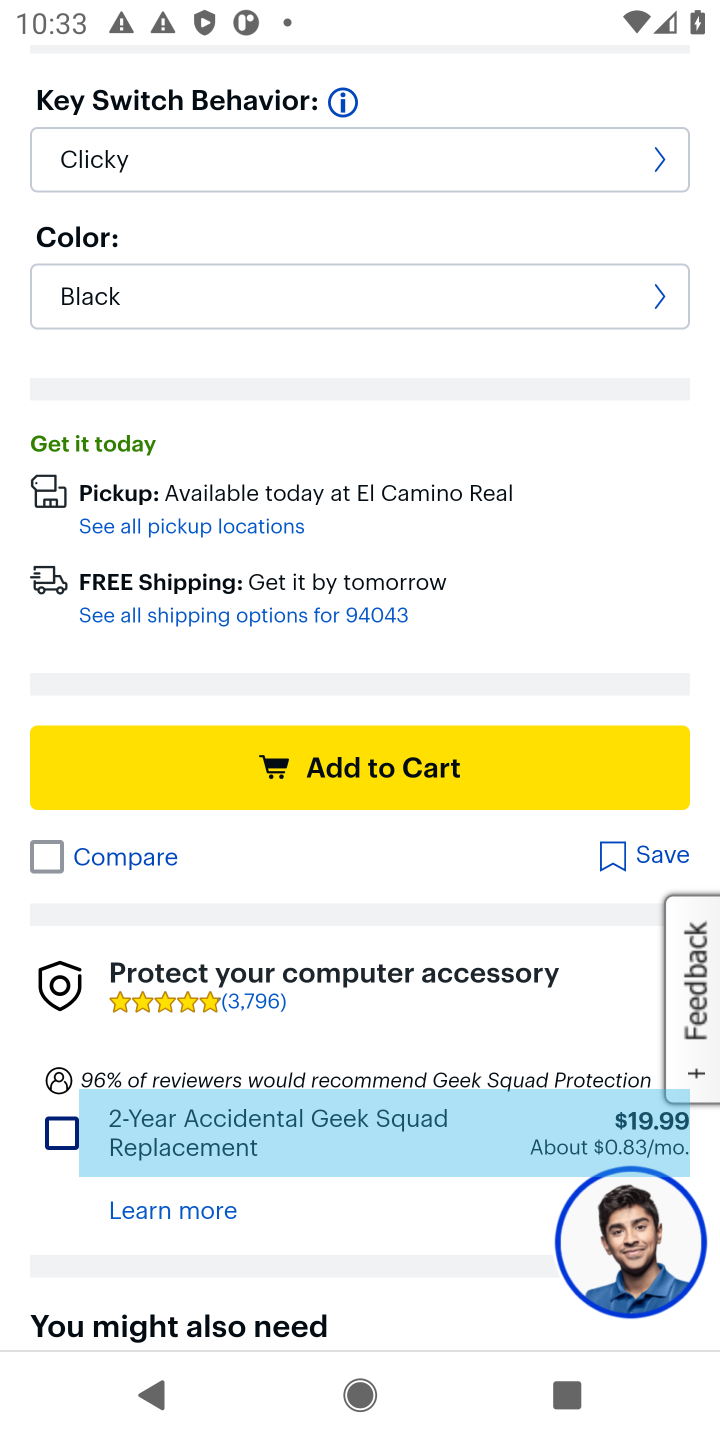
Step 28: click (423, 806)
Your task to perform on an android device: Clear the shopping cart on bestbuy.com. Add "razer huntsman" to the cart on bestbuy.com, then select checkout. Image 29: 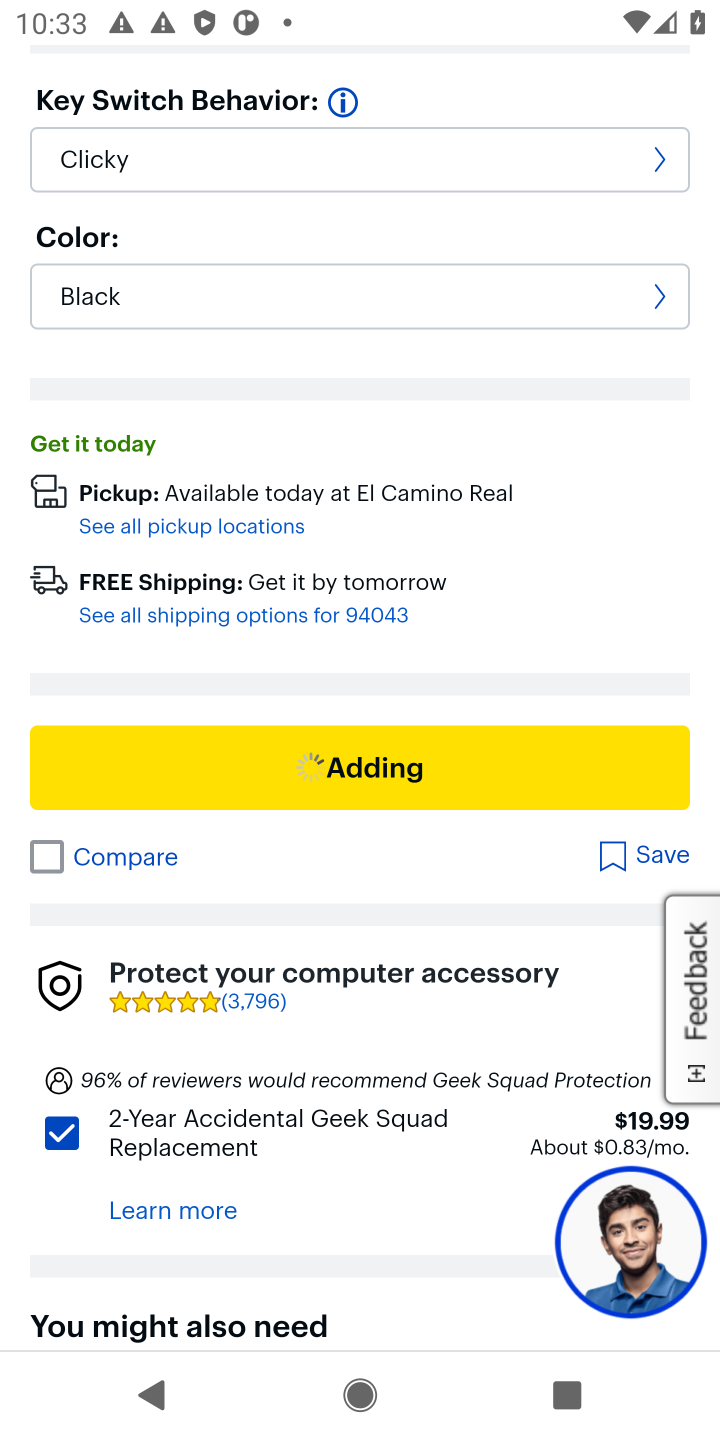
Step 29: click (401, 778)
Your task to perform on an android device: Clear the shopping cart on bestbuy.com. Add "razer huntsman" to the cart on bestbuy.com, then select checkout. Image 30: 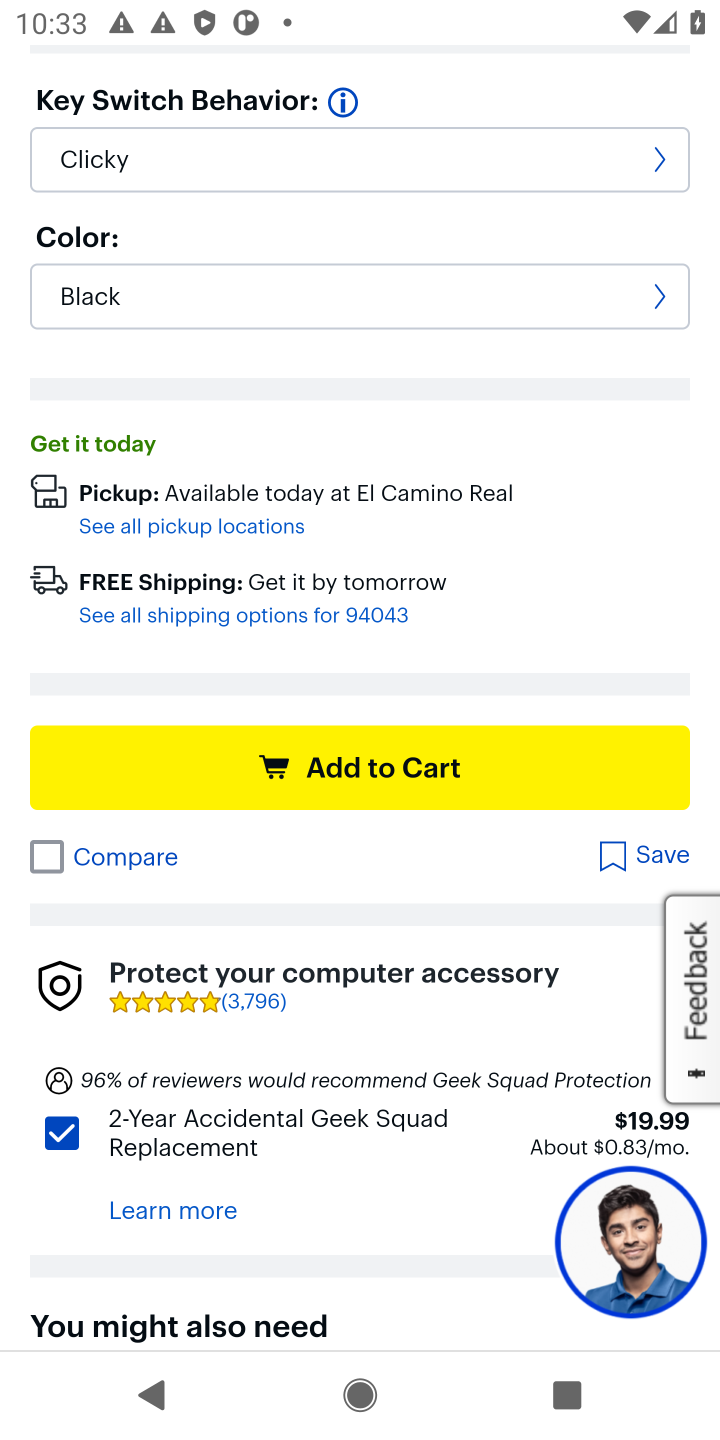
Step 30: drag from (446, 383) to (471, 1196)
Your task to perform on an android device: Clear the shopping cart on bestbuy.com. Add "razer huntsman" to the cart on bestbuy.com, then select checkout. Image 31: 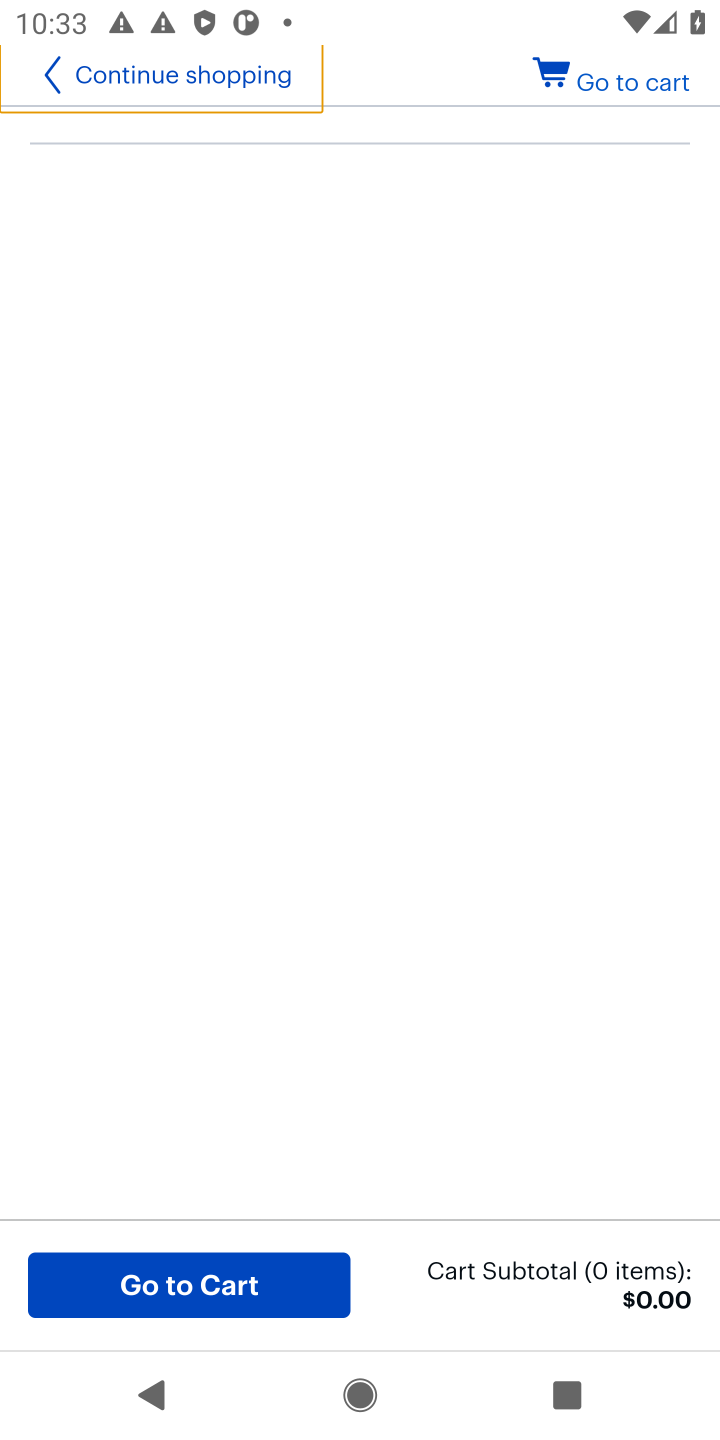
Step 31: drag from (492, 405) to (512, 1165)
Your task to perform on an android device: Clear the shopping cart on bestbuy.com. Add "razer huntsman" to the cart on bestbuy.com, then select checkout. Image 32: 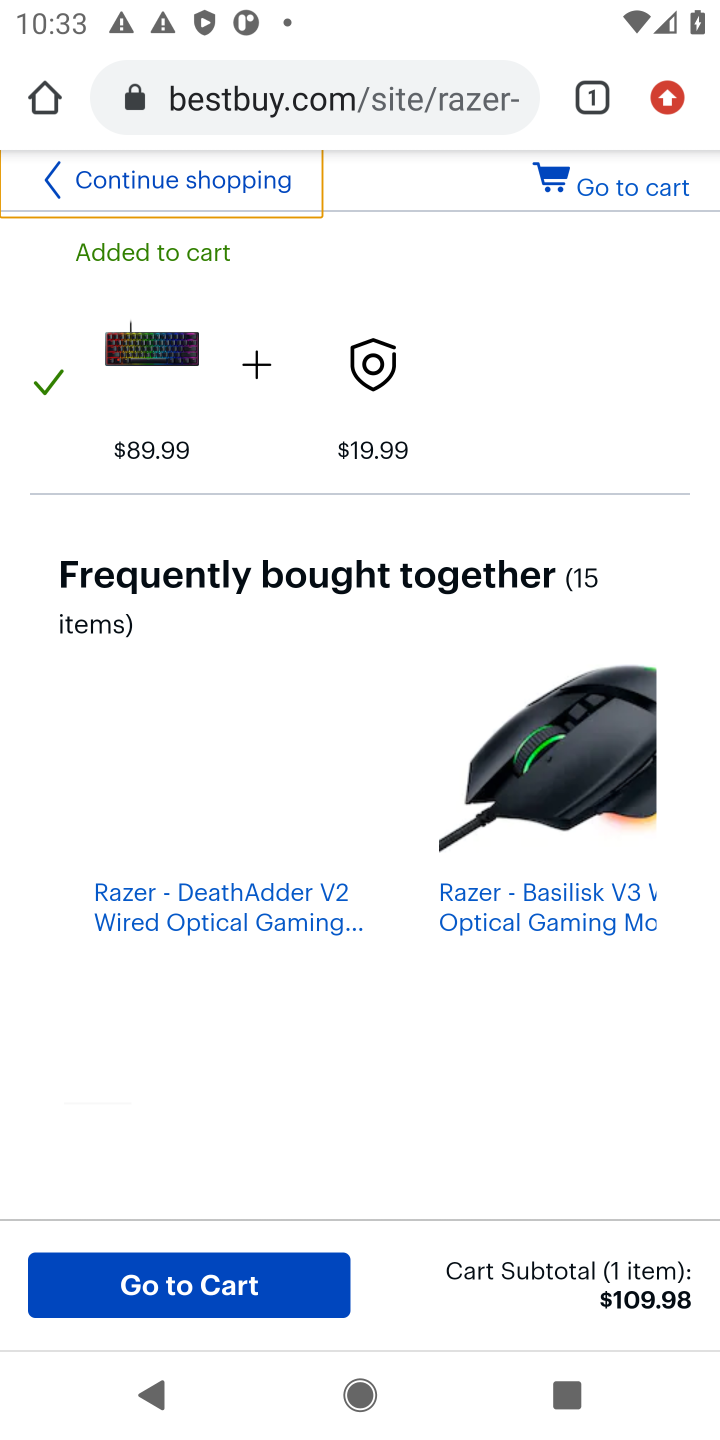
Step 32: click (618, 195)
Your task to perform on an android device: Clear the shopping cart on bestbuy.com. Add "razer huntsman" to the cart on bestbuy.com, then select checkout. Image 33: 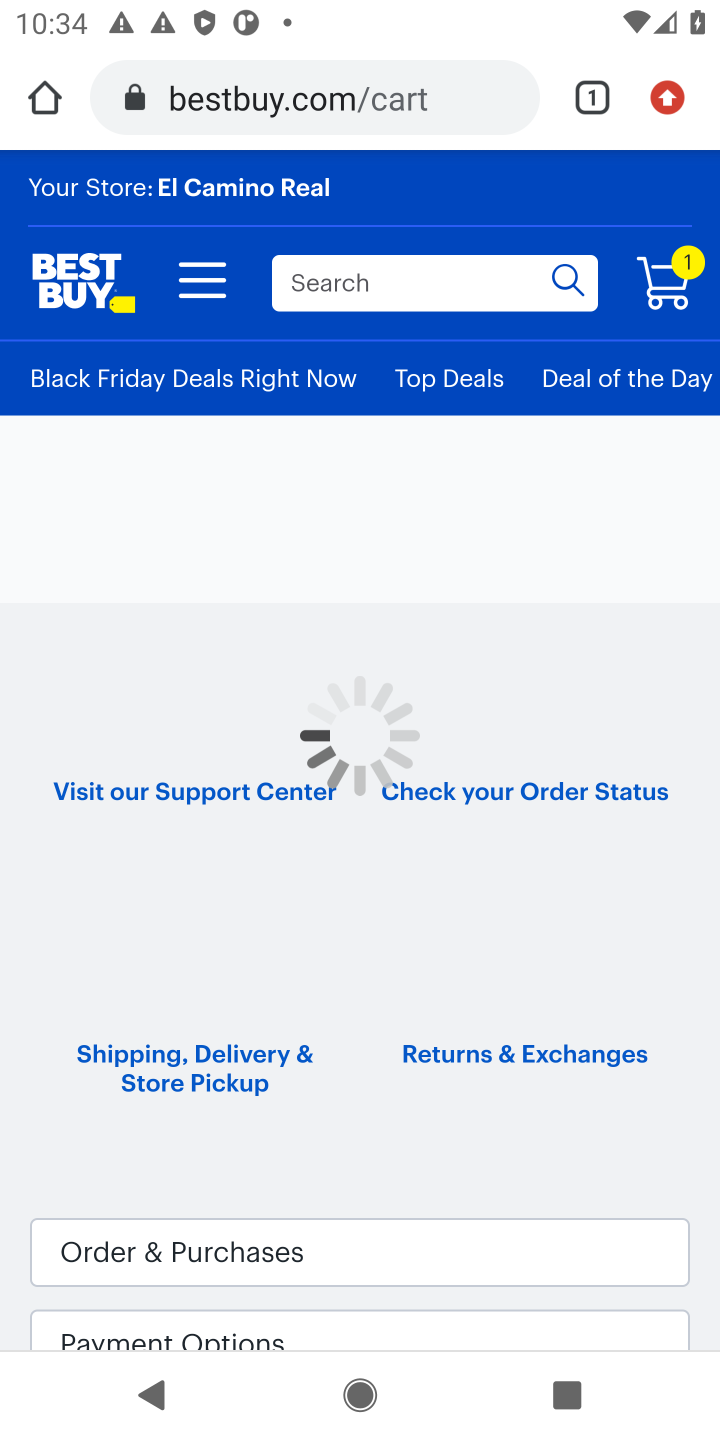
Step 33: click (682, 283)
Your task to perform on an android device: Clear the shopping cart on bestbuy.com. Add "razer huntsman" to the cart on bestbuy.com, then select checkout. Image 34: 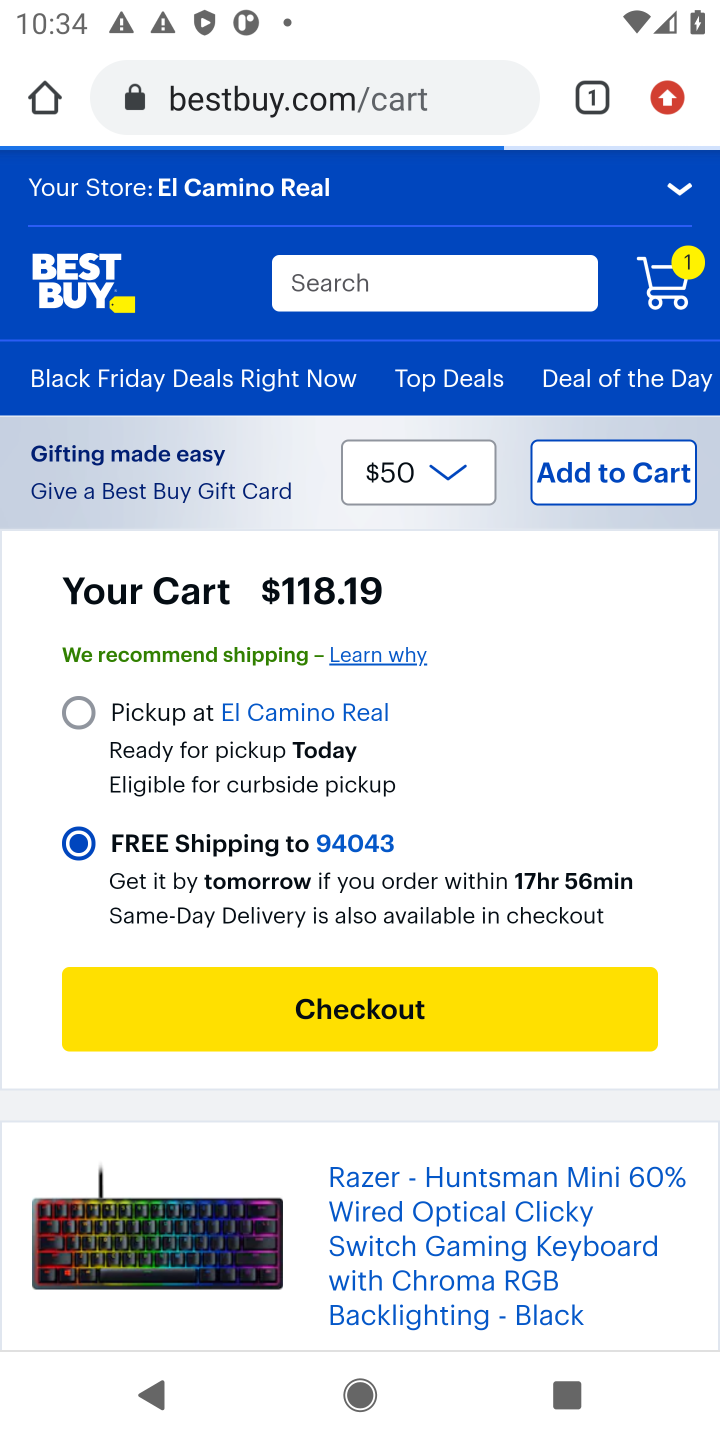
Step 34: click (430, 1029)
Your task to perform on an android device: Clear the shopping cart on bestbuy.com. Add "razer huntsman" to the cart on bestbuy.com, then select checkout. Image 35: 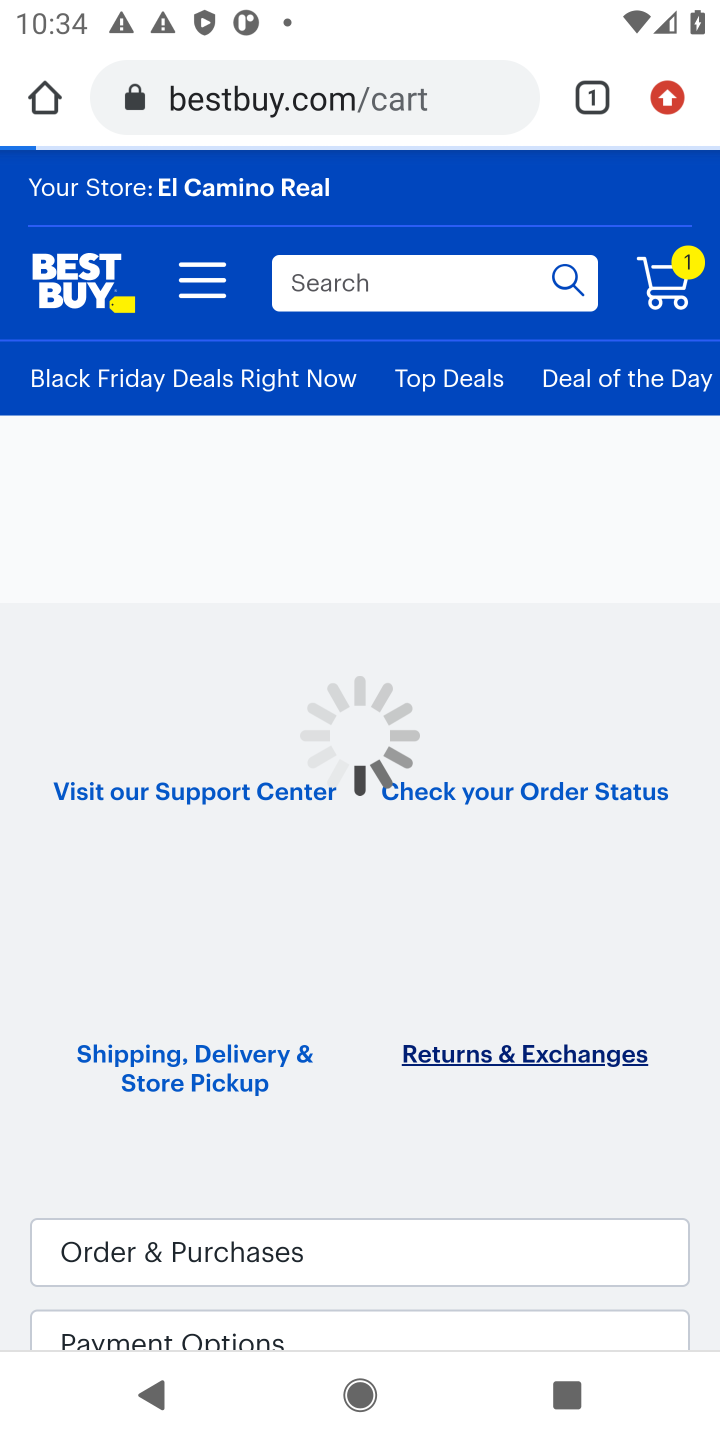
Step 35: click (676, 218)
Your task to perform on an android device: Clear the shopping cart on bestbuy.com. Add "razer huntsman" to the cart on bestbuy.com, then select checkout. Image 36: 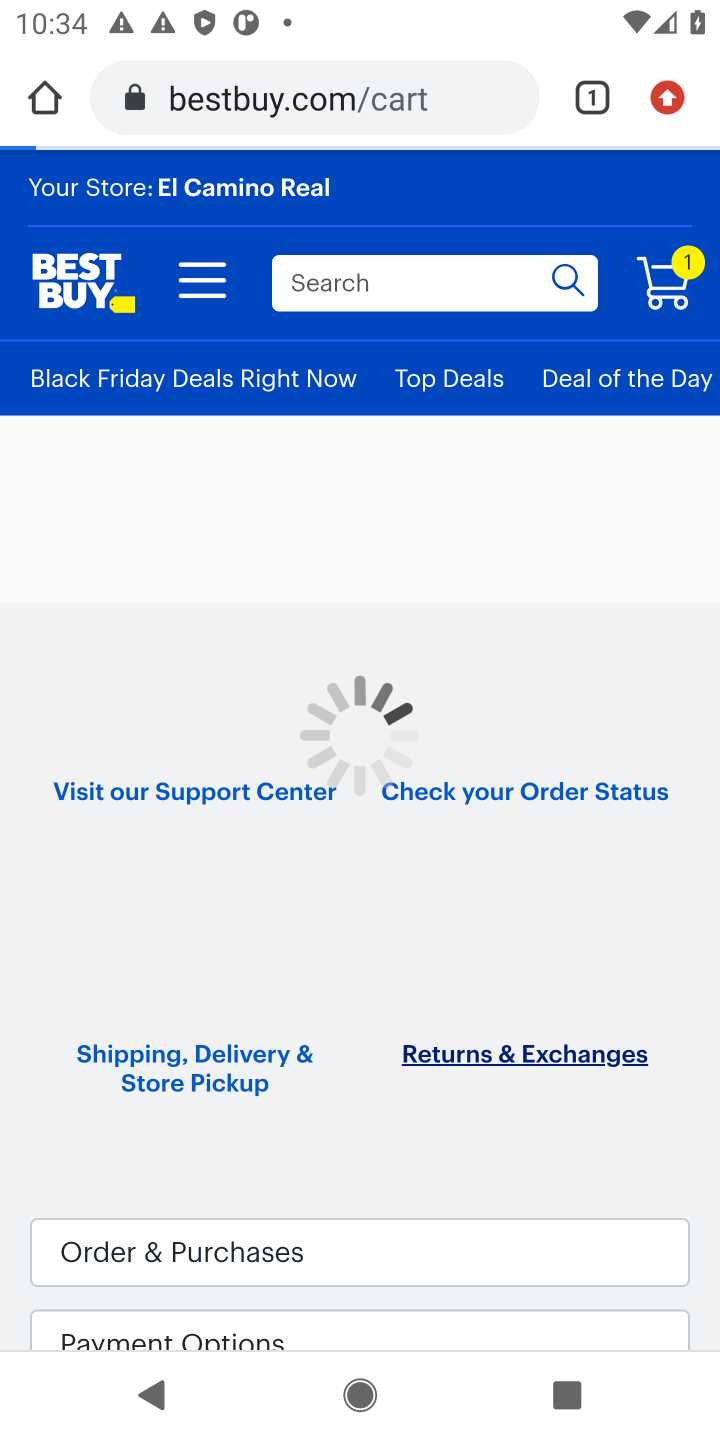
Step 36: click (657, 289)
Your task to perform on an android device: Clear the shopping cart on bestbuy.com. Add "razer huntsman" to the cart on bestbuy.com, then select checkout. Image 37: 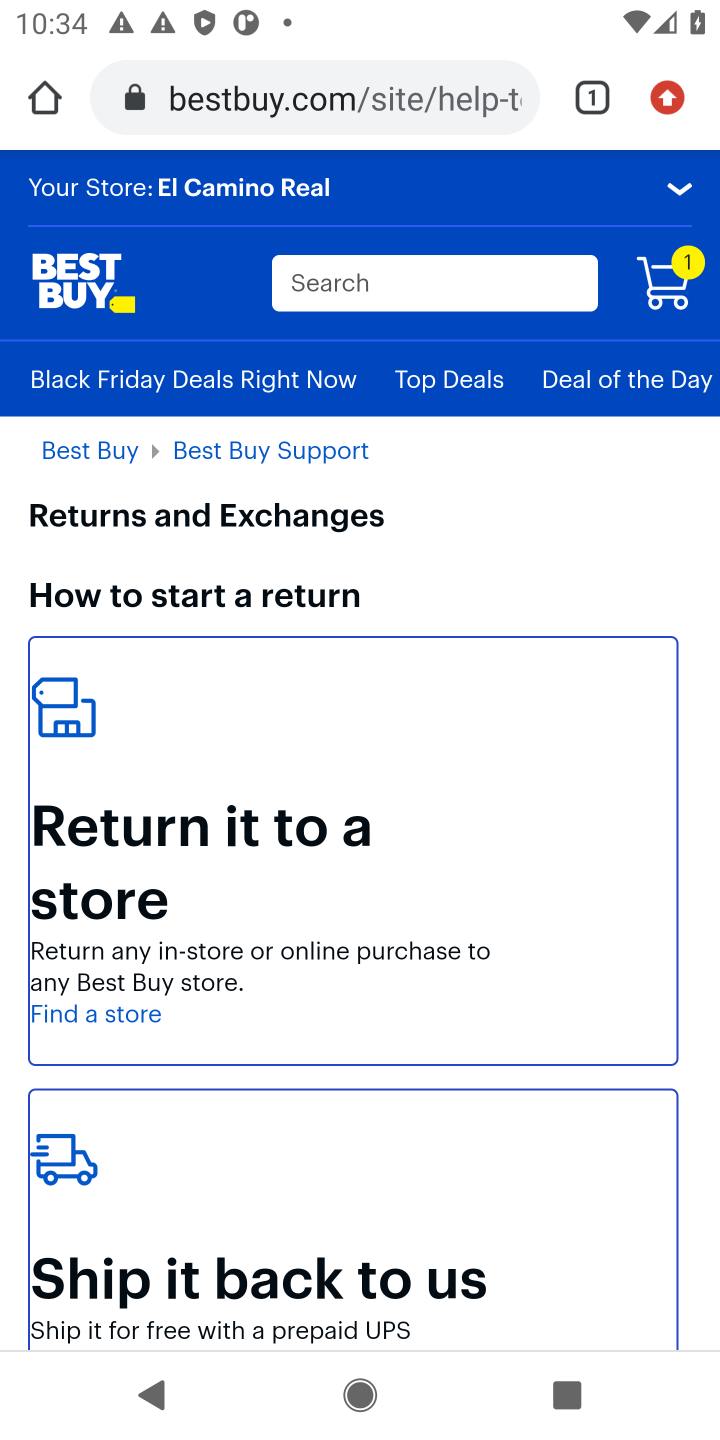
Step 37: click (657, 289)
Your task to perform on an android device: Clear the shopping cart on bestbuy.com. Add "razer huntsman" to the cart on bestbuy.com, then select checkout. Image 38: 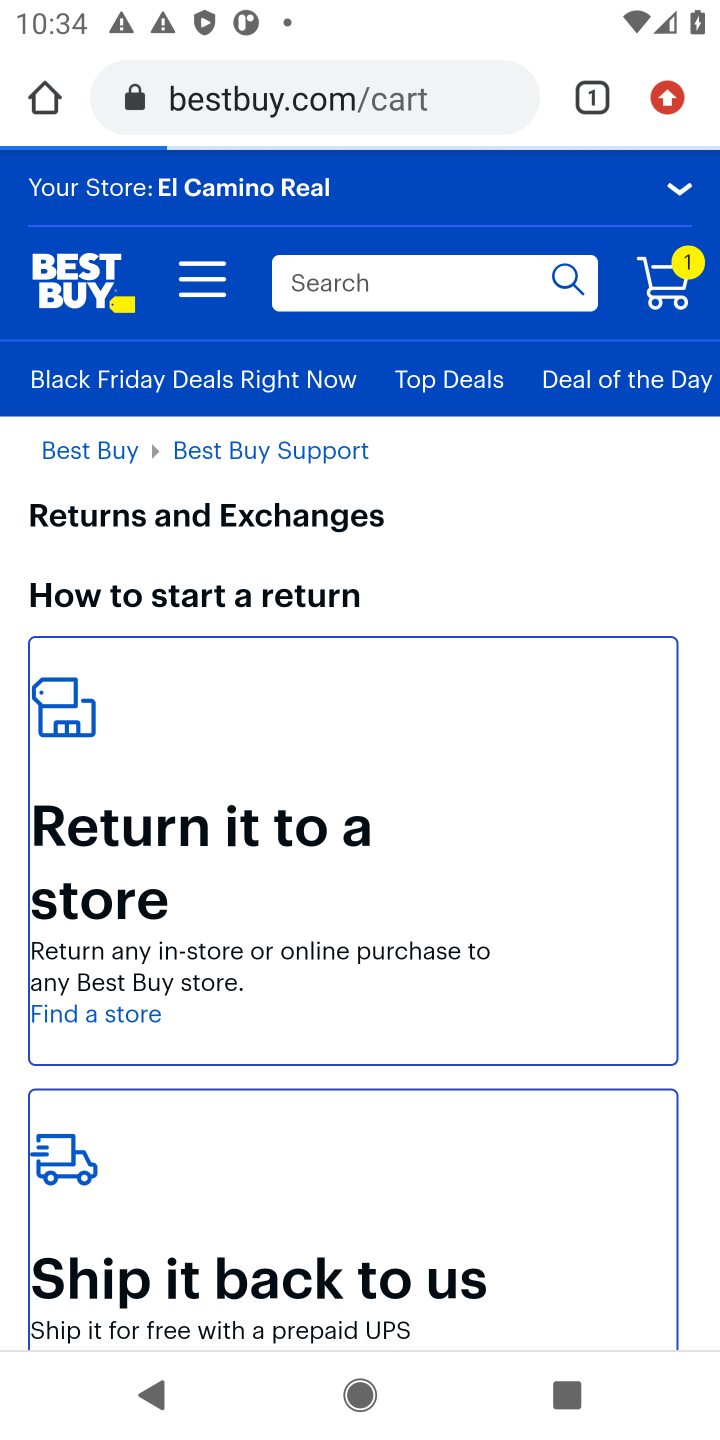
Step 38: task complete